Your task to perform on an android device: Search for "macbook pro" on amazon, select the first entry, add it to the cart, then select checkout. Image 0: 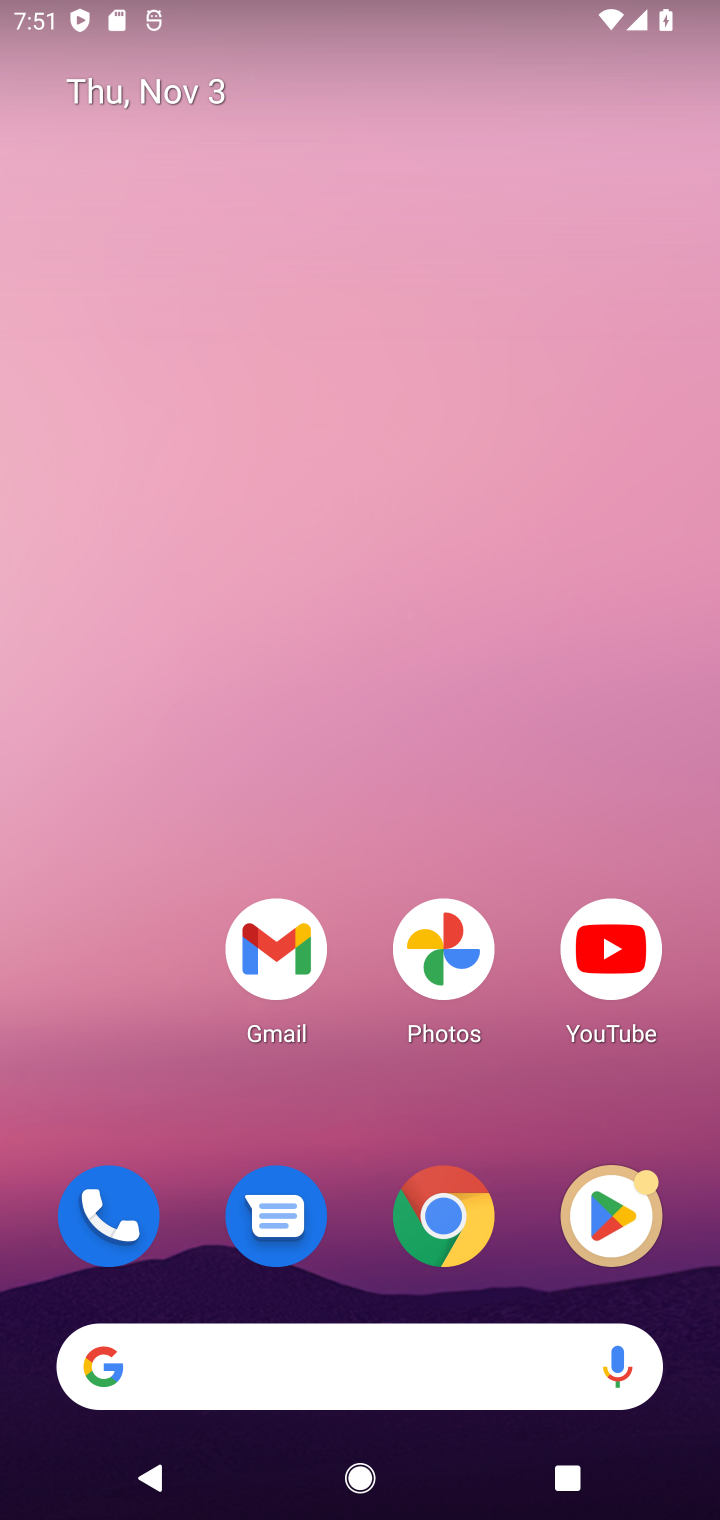
Step 0: click (450, 1232)
Your task to perform on an android device: Search for "macbook pro" on amazon, select the first entry, add it to the cart, then select checkout. Image 1: 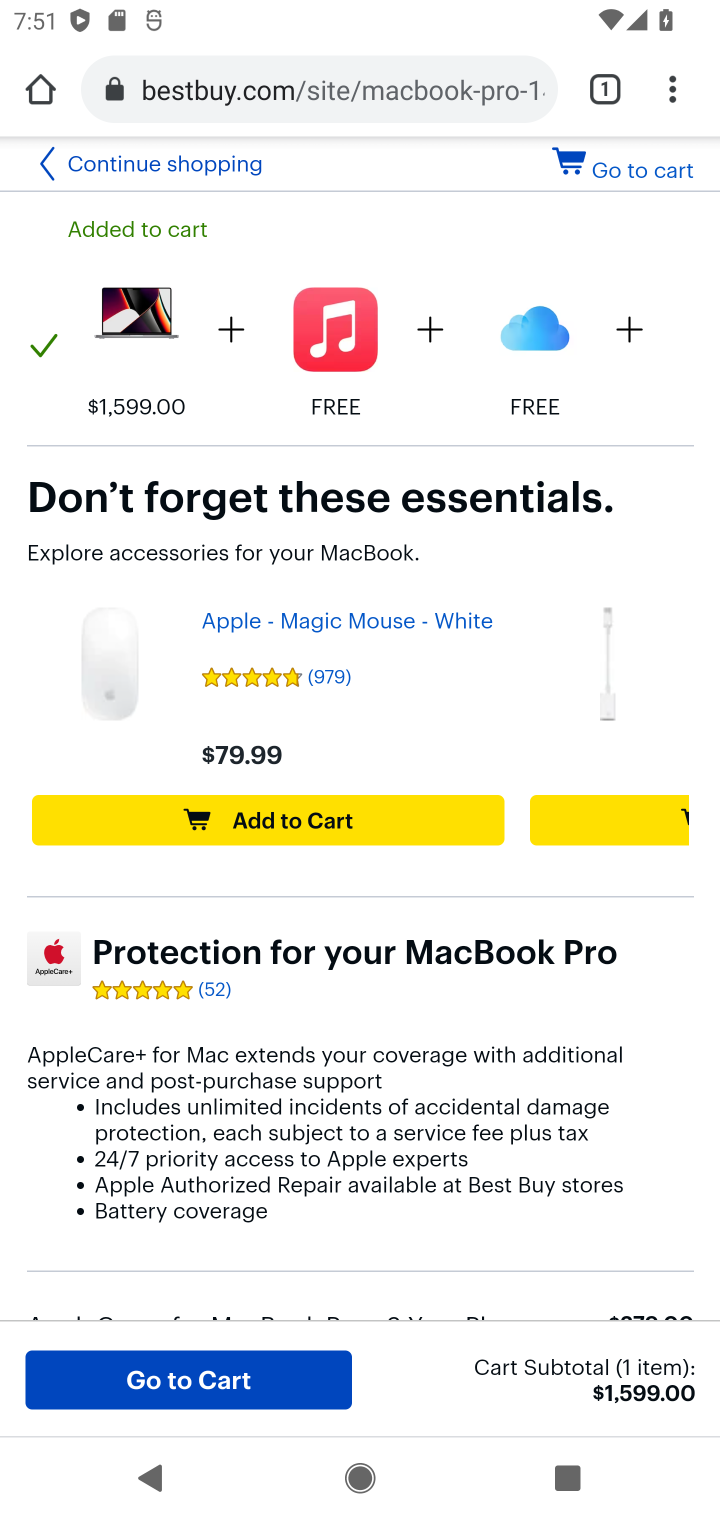
Step 1: click (564, 91)
Your task to perform on an android device: Search for "macbook pro" on amazon, select the first entry, add it to the cart, then select checkout. Image 2: 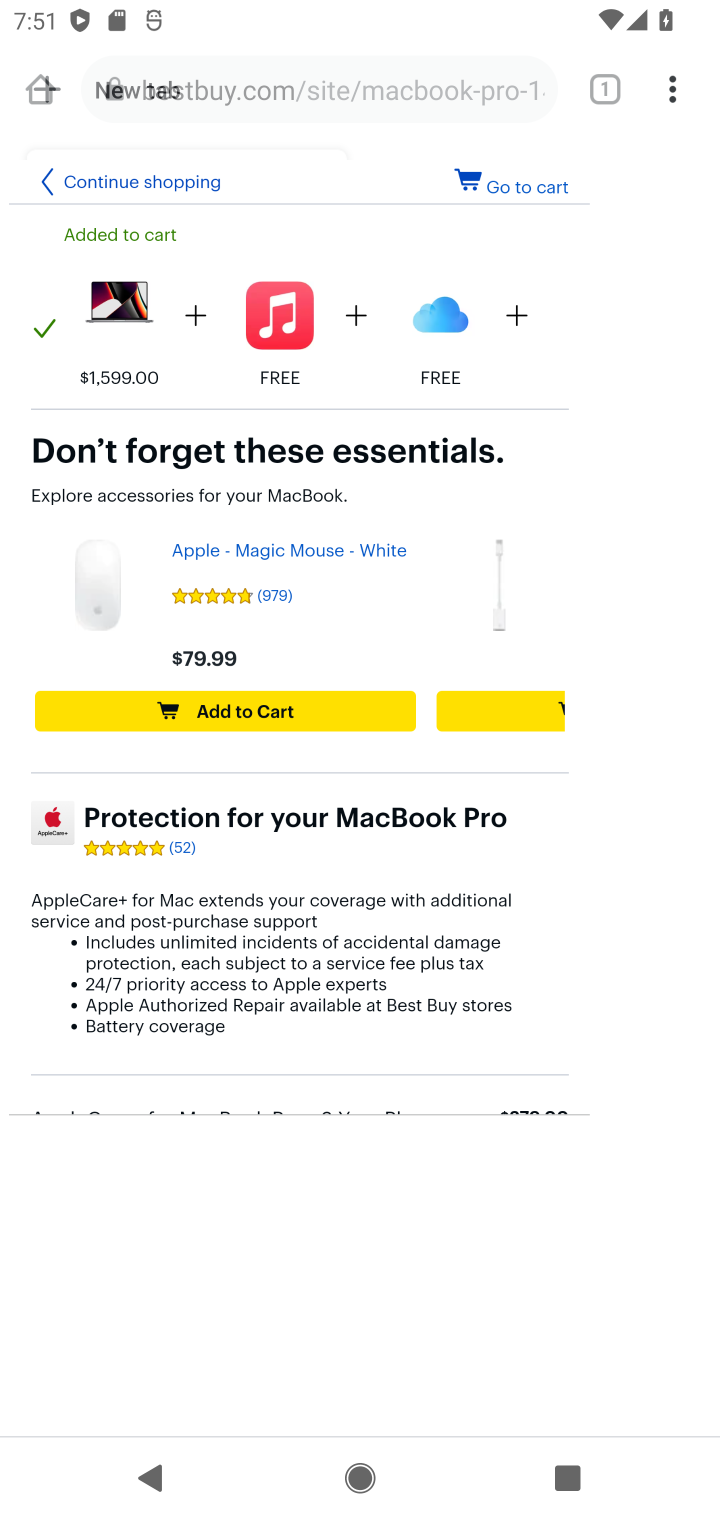
Step 2: click (601, 85)
Your task to perform on an android device: Search for "macbook pro" on amazon, select the first entry, add it to the cart, then select checkout. Image 3: 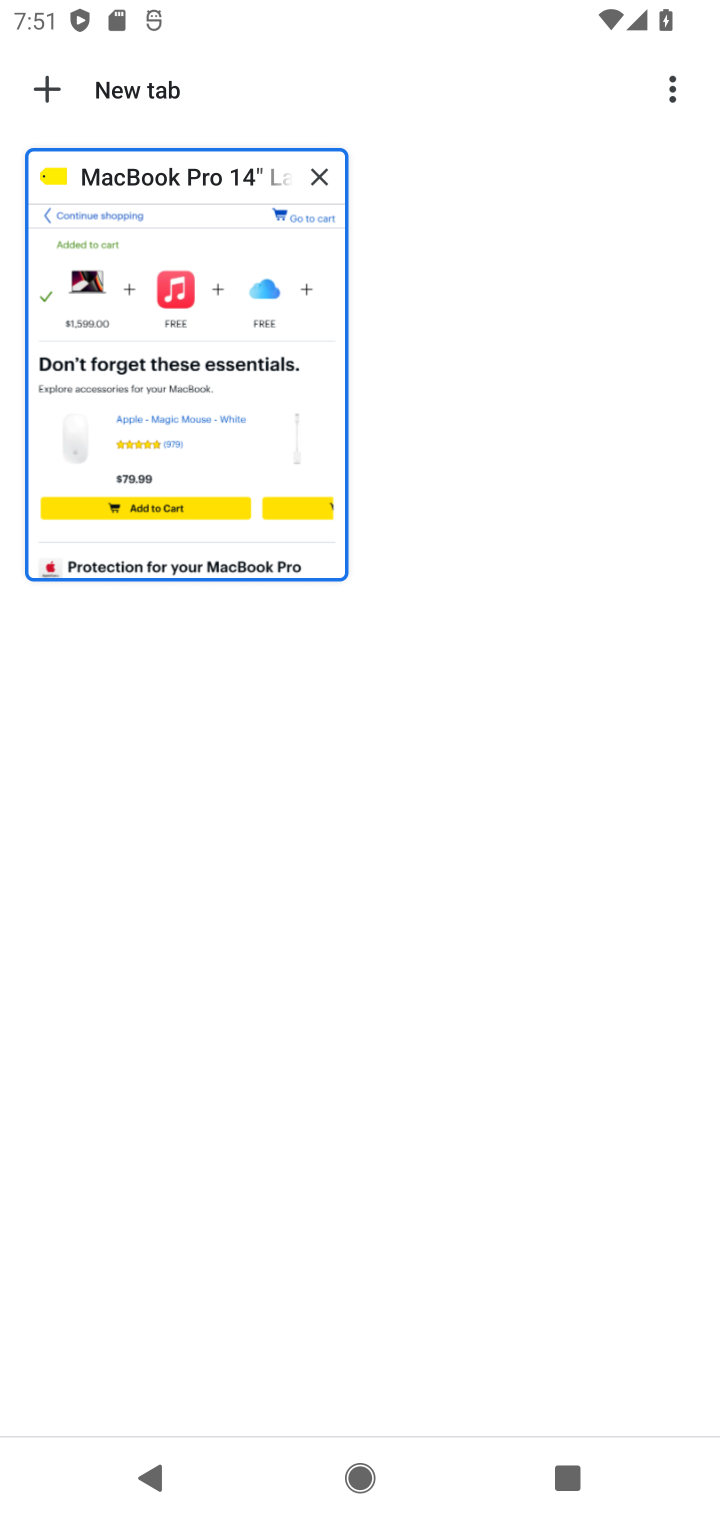
Step 3: click (36, 85)
Your task to perform on an android device: Search for "macbook pro" on amazon, select the first entry, add it to the cart, then select checkout. Image 4: 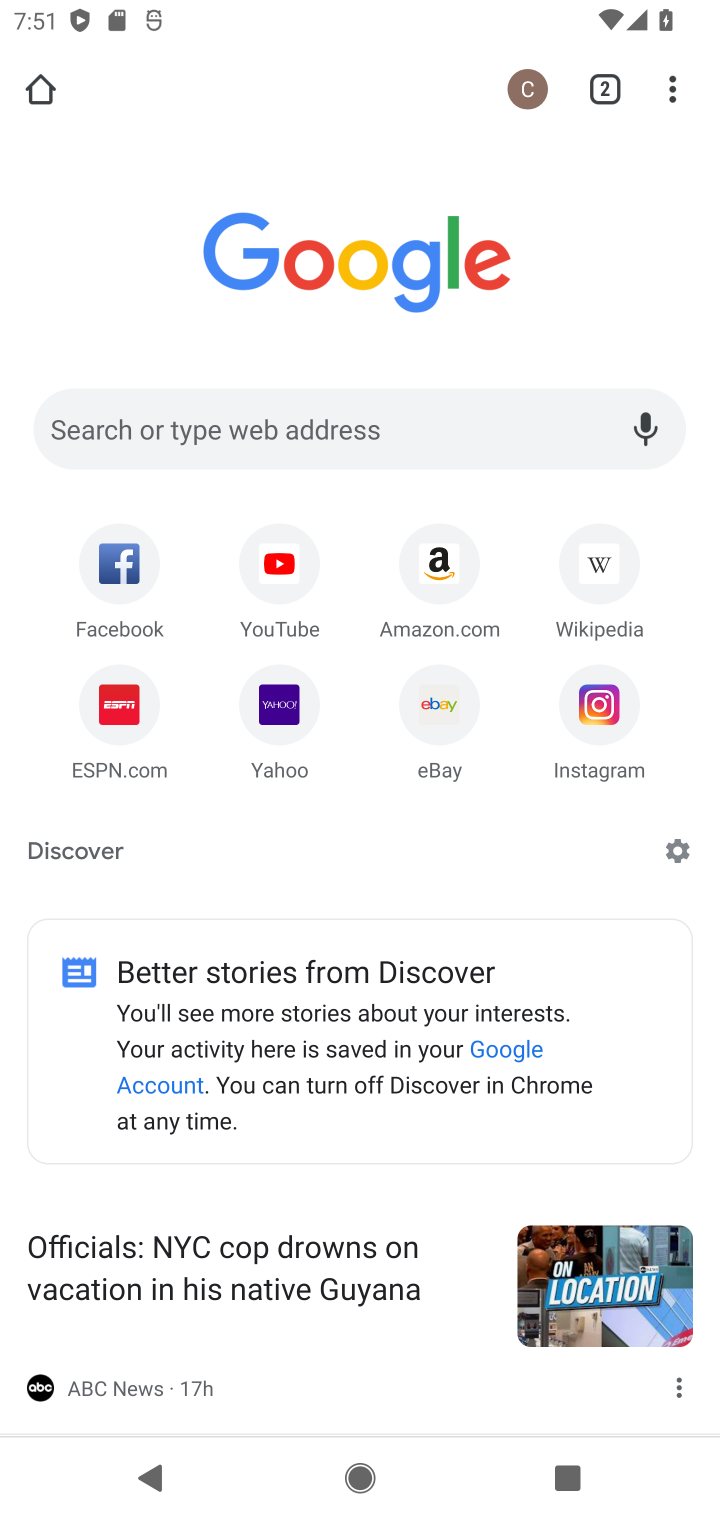
Step 4: click (444, 578)
Your task to perform on an android device: Search for "macbook pro" on amazon, select the first entry, add it to the cart, then select checkout. Image 5: 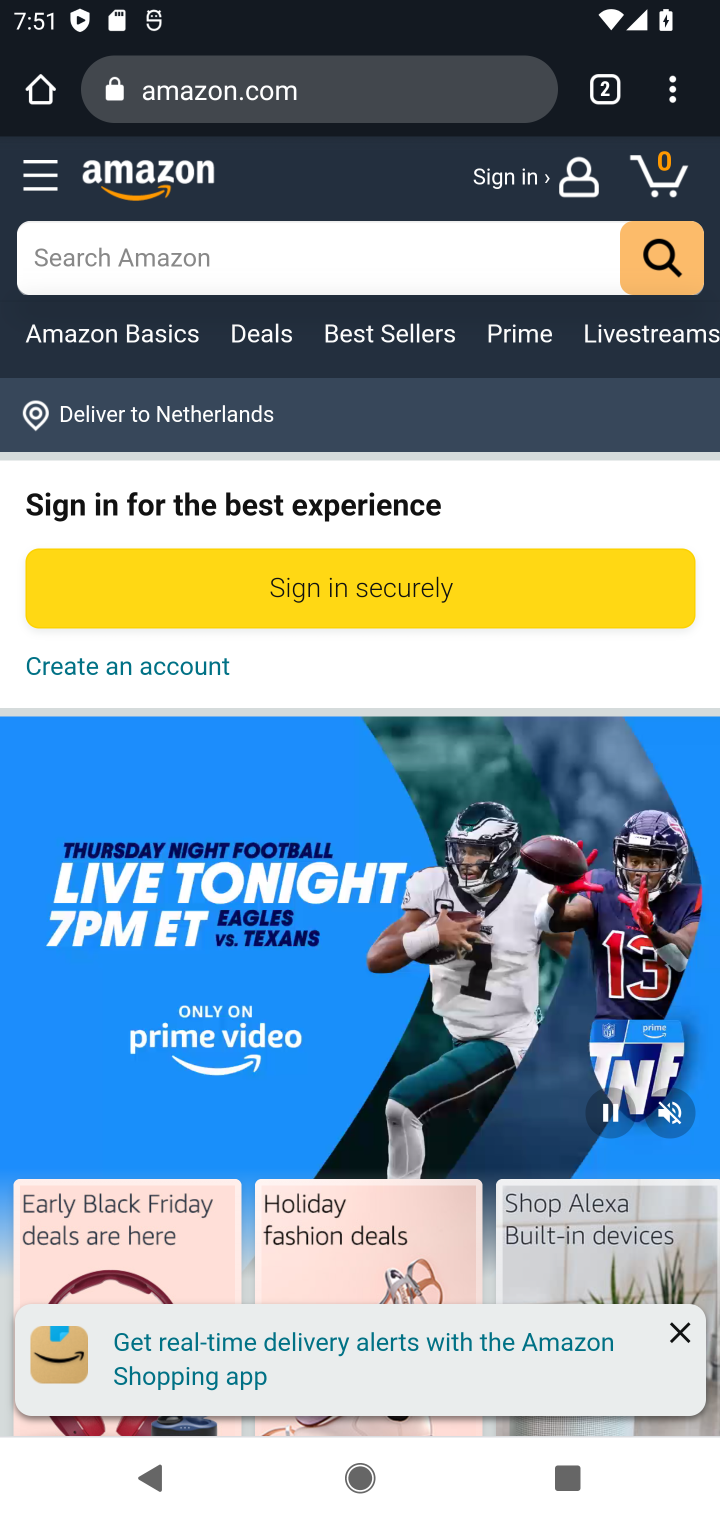
Step 5: type "macbook pro"
Your task to perform on an android device: Search for "macbook pro" on amazon, select the first entry, add it to the cart, then select checkout. Image 6: 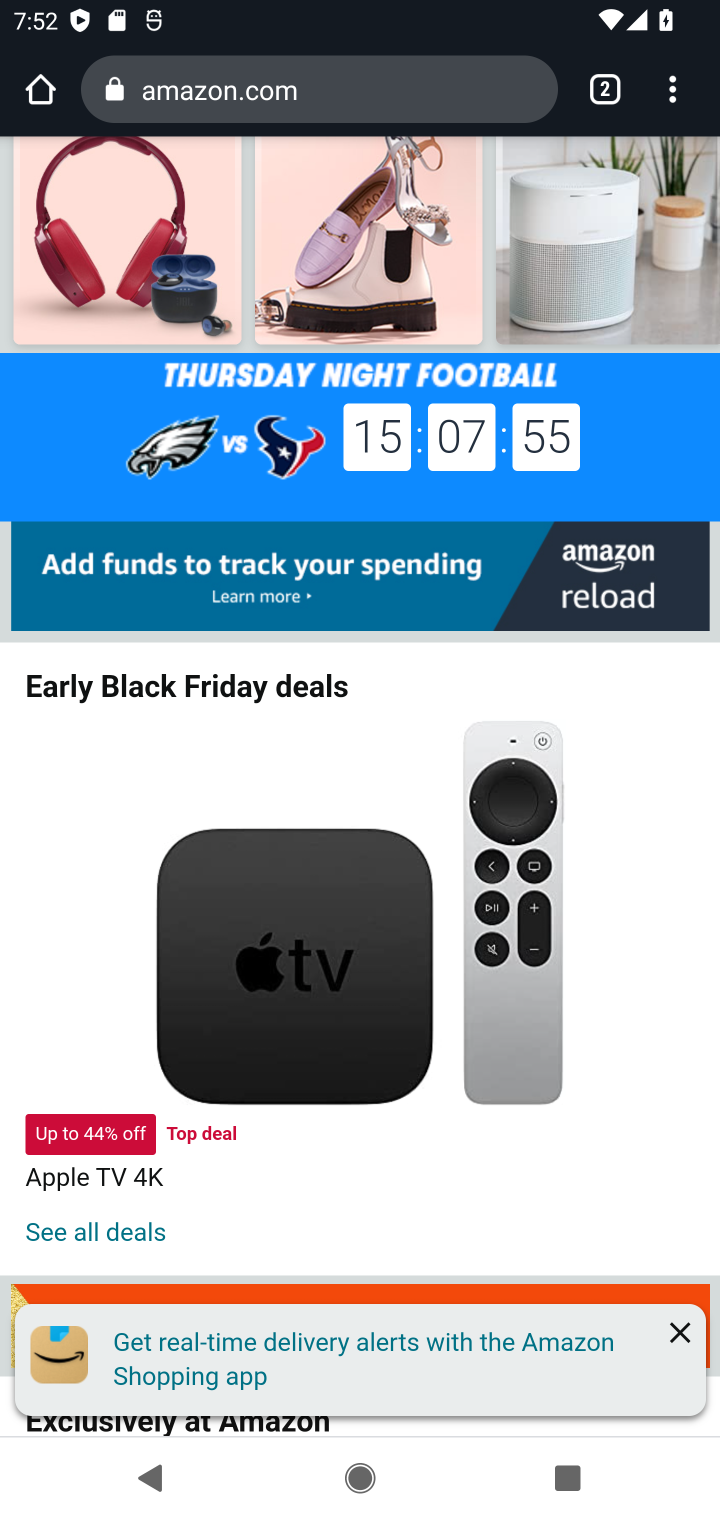
Step 6: drag from (356, 571) to (457, 1267)
Your task to perform on an android device: Search for "macbook pro" on amazon, select the first entry, add it to the cart, then select checkout. Image 7: 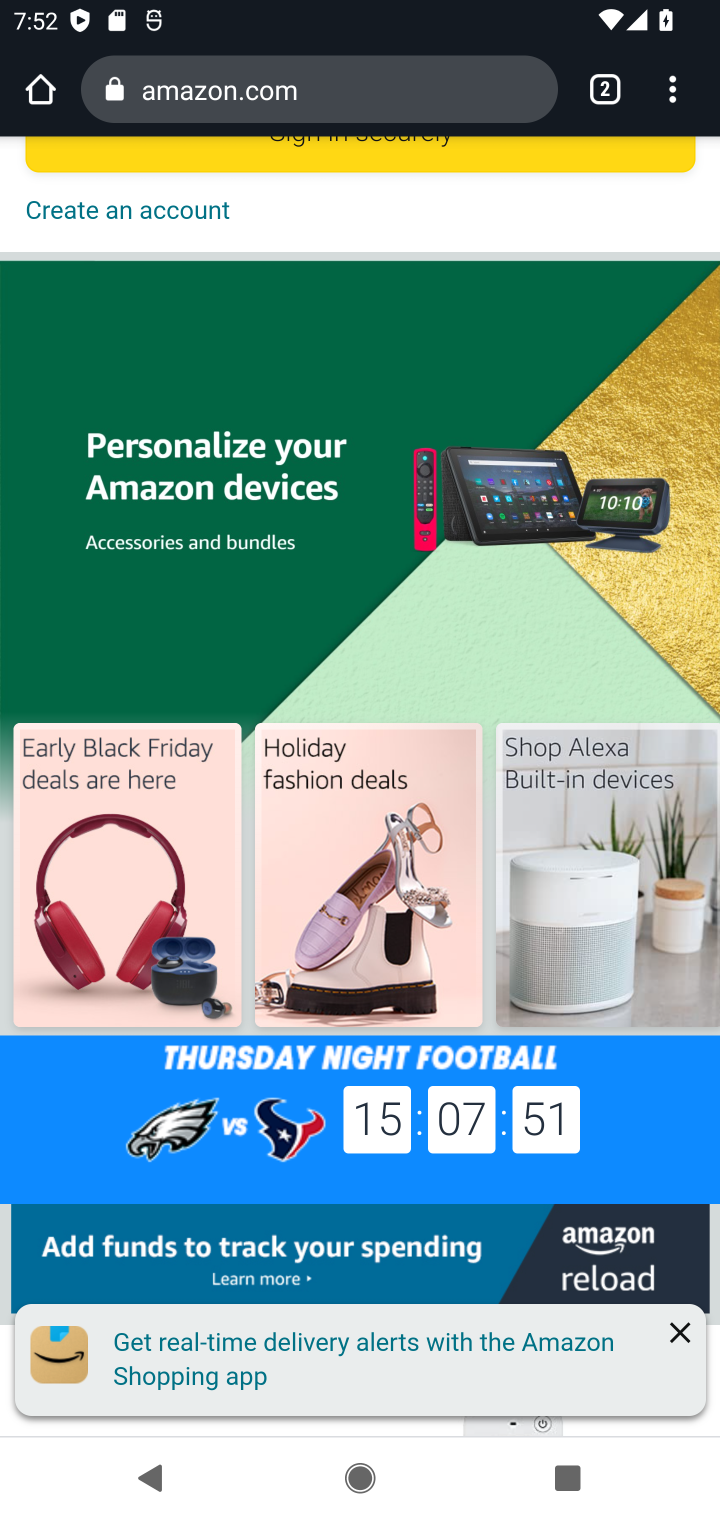
Step 7: drag from (271, 615) to (307, 1054)
Your task to perform on an android device: Search for "macbook pro" on amazon, select the first entry, add it to the cart, then select checkout. Image 8: 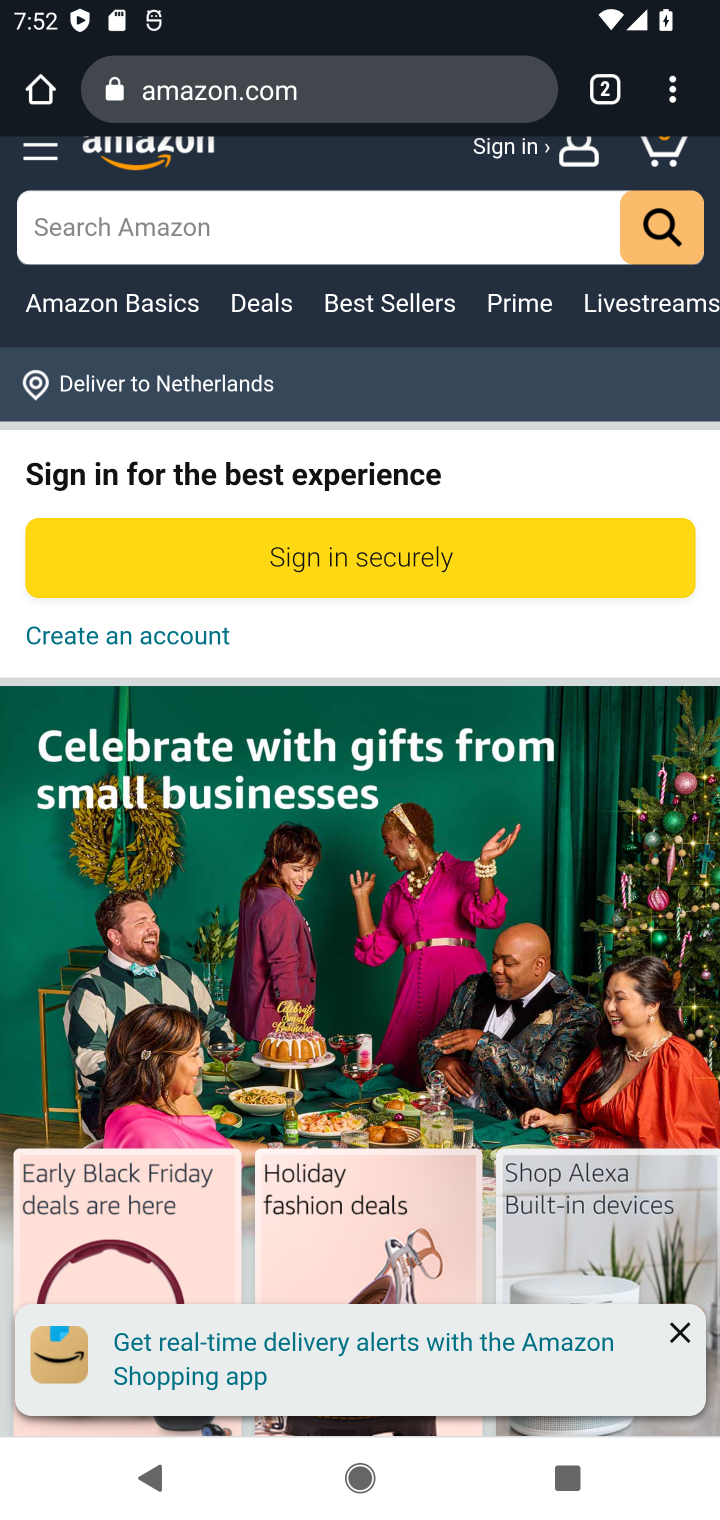
Step 8: click (327, 219)
Your task to perform on an android device: Search for "macbook pro" on amazon, select the first entry, add it to the cart, then select checkout. Image 9: 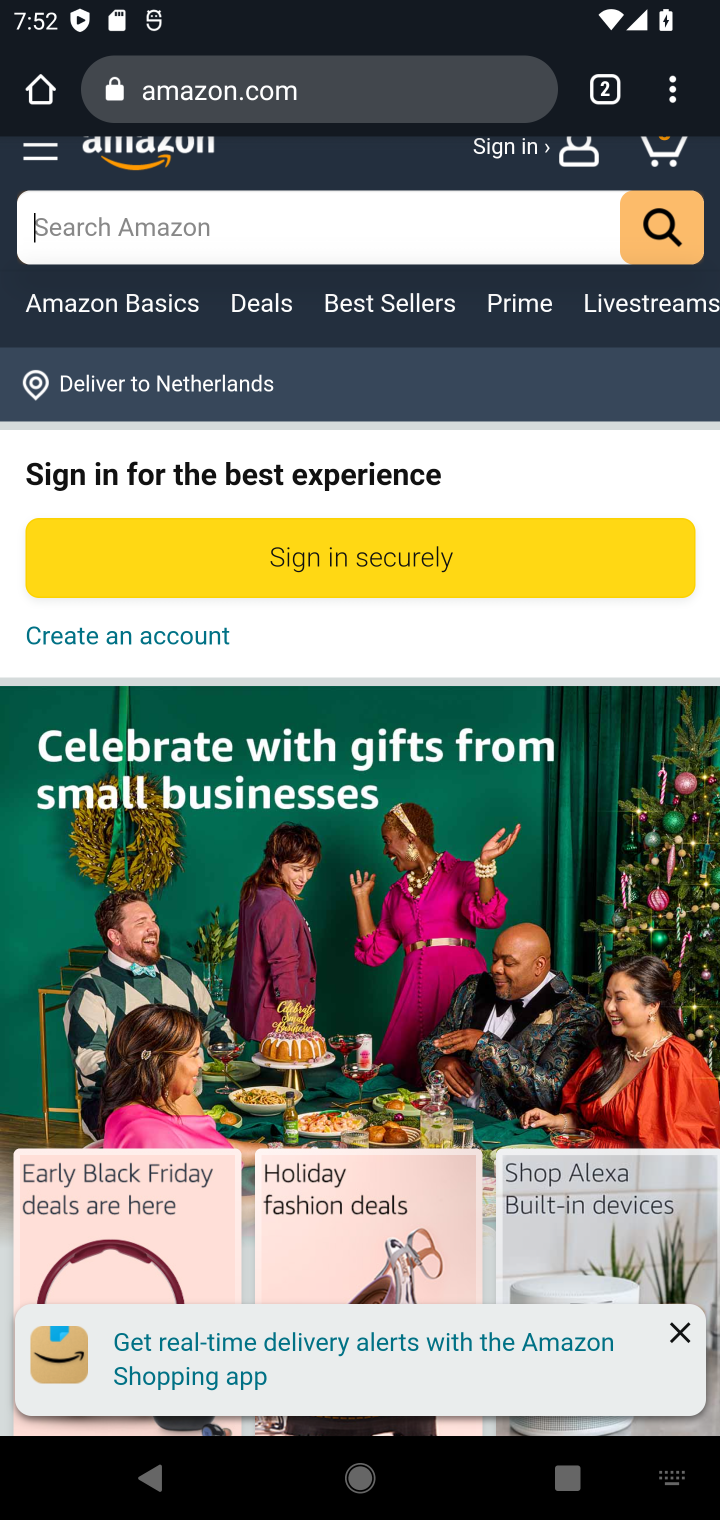
Step 9: type "macbook pro"
Your task to perform on an android device: Search for "macbook pro" on amazon, select the first entry, add it to the cart, then select checkout. Image 10: 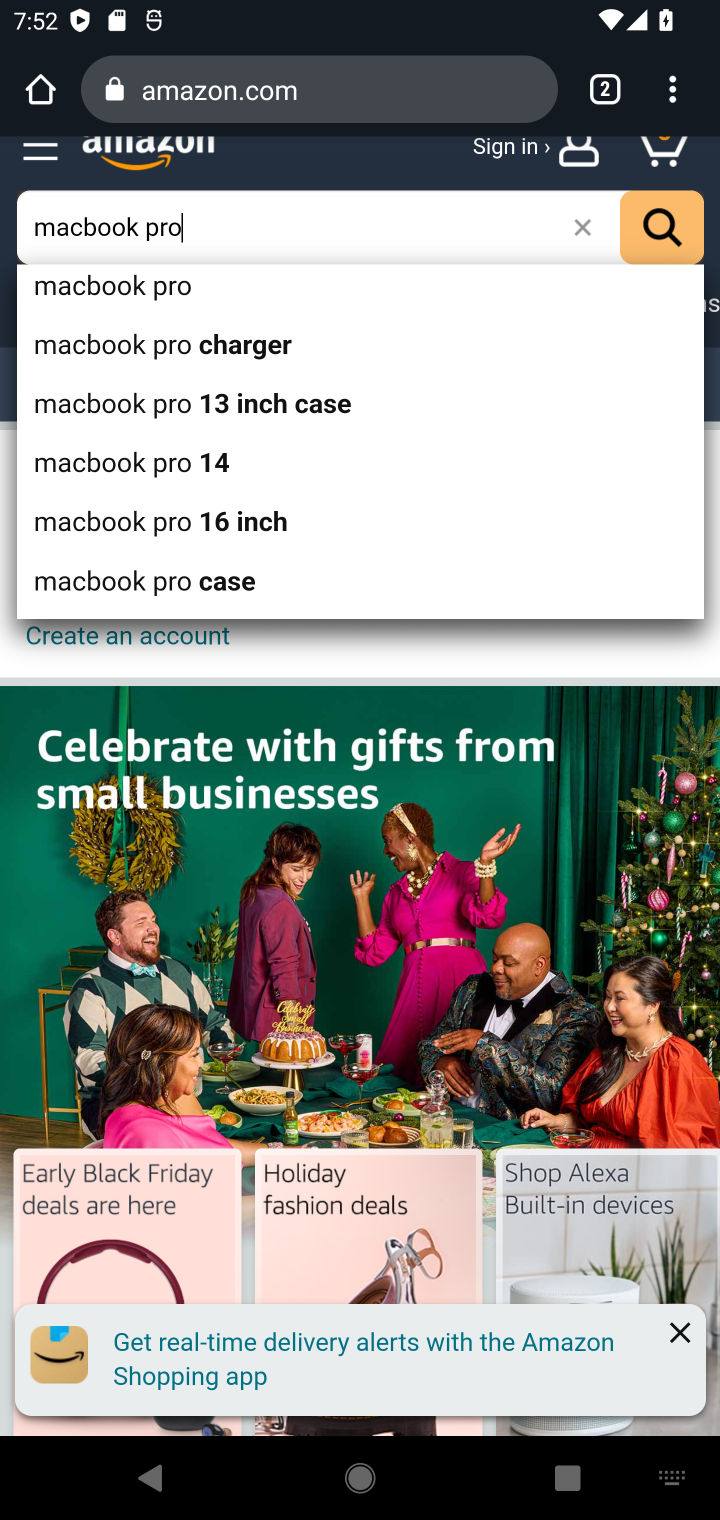
Step 10: press enter
Your task to perform on an android device: Search for "macbook pro" on amazon, select the first entry, add it to the cart, then select checkout. Image 11: 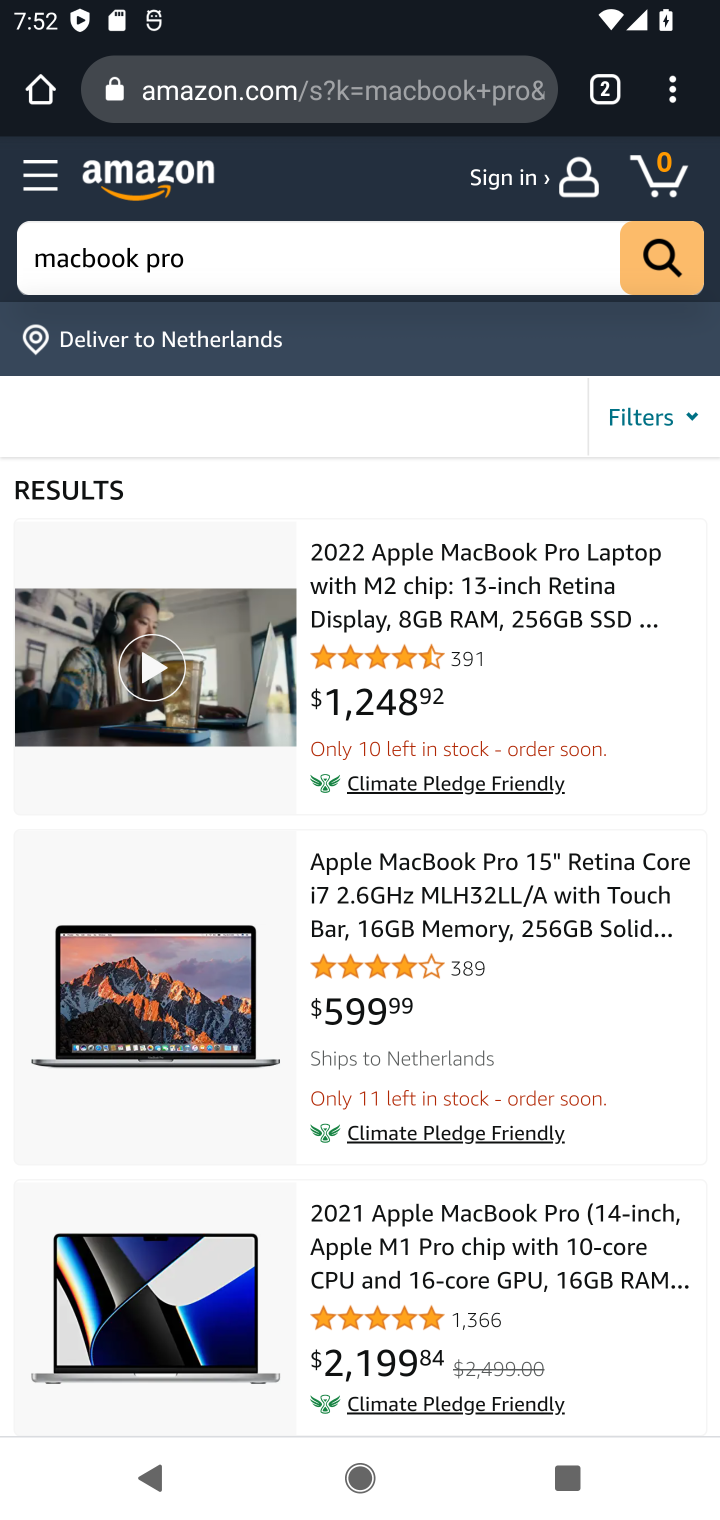
Step 11: click (497, 598)
Your task to perform on an android device: Search for "macbook pro" on amazon, select the first entry, add it to the cart, then select checkout. Image 12: 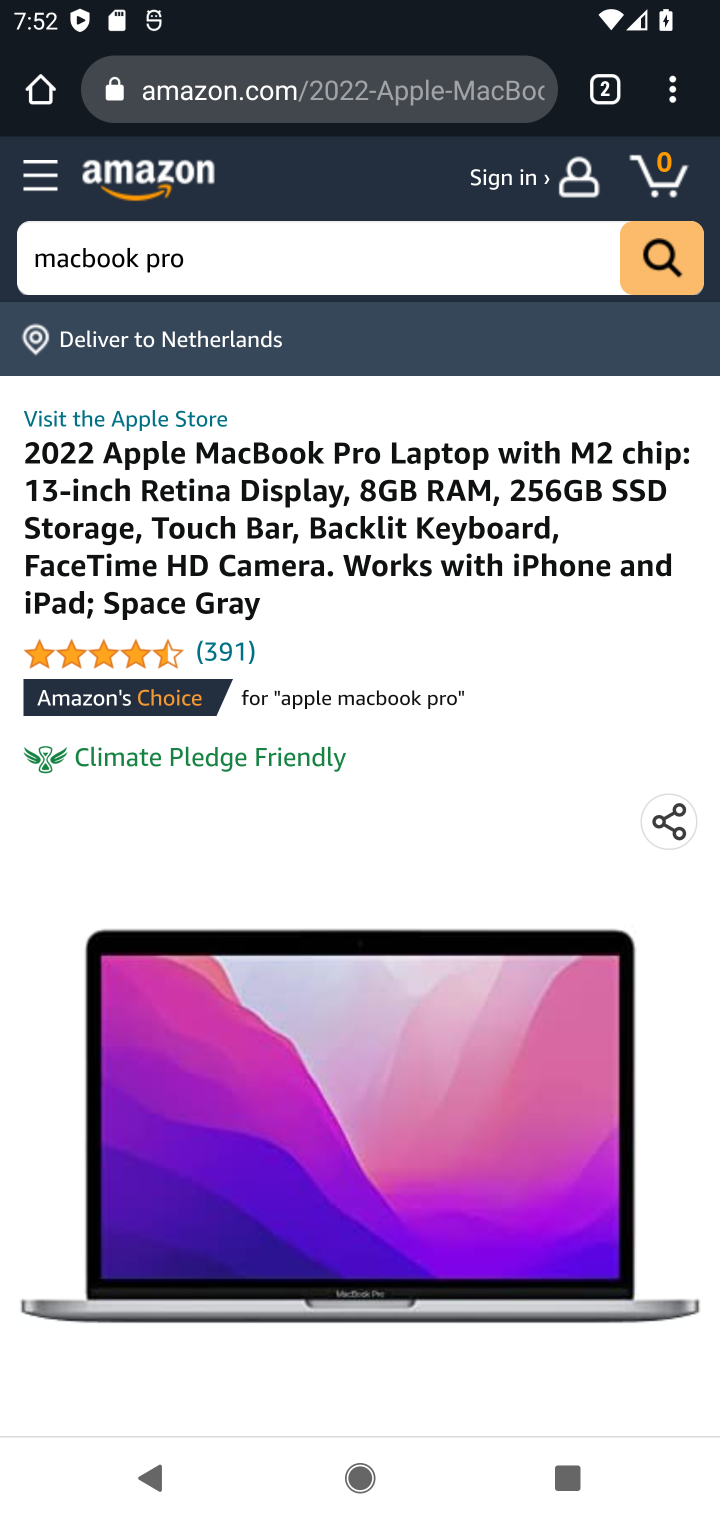
Step 12: drag from (446, 781) to (423, 372)
Your task to perform on an android device: Search for "macbook pro" on amazon, select the first entry, add it to the cart, then select checkout. Image 13: 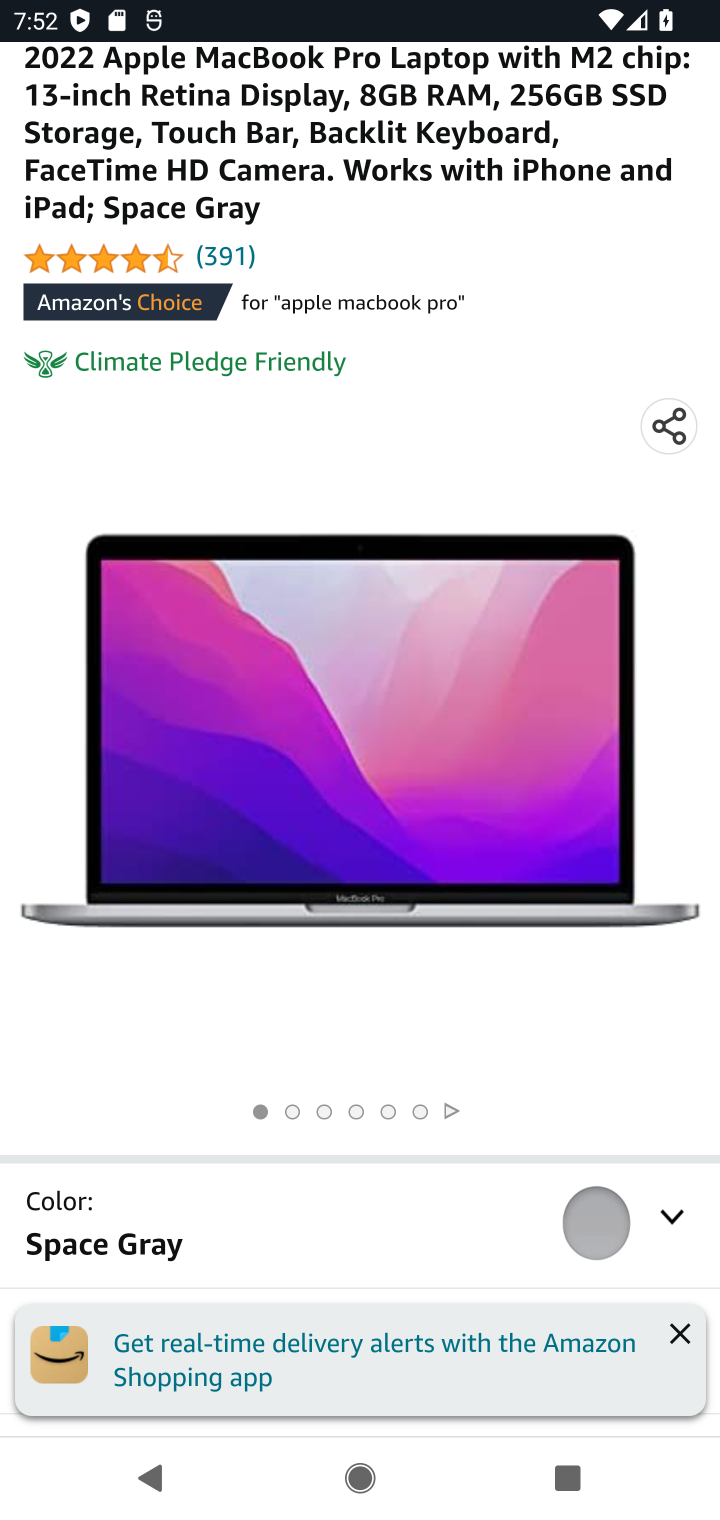
Step 13: drag from (335, 1294) to (320, 343)
Your task to perform on an android device: Search for "macbook pro" on amazon, select the first entry, add it to the cart, then select checkout. Image 14: 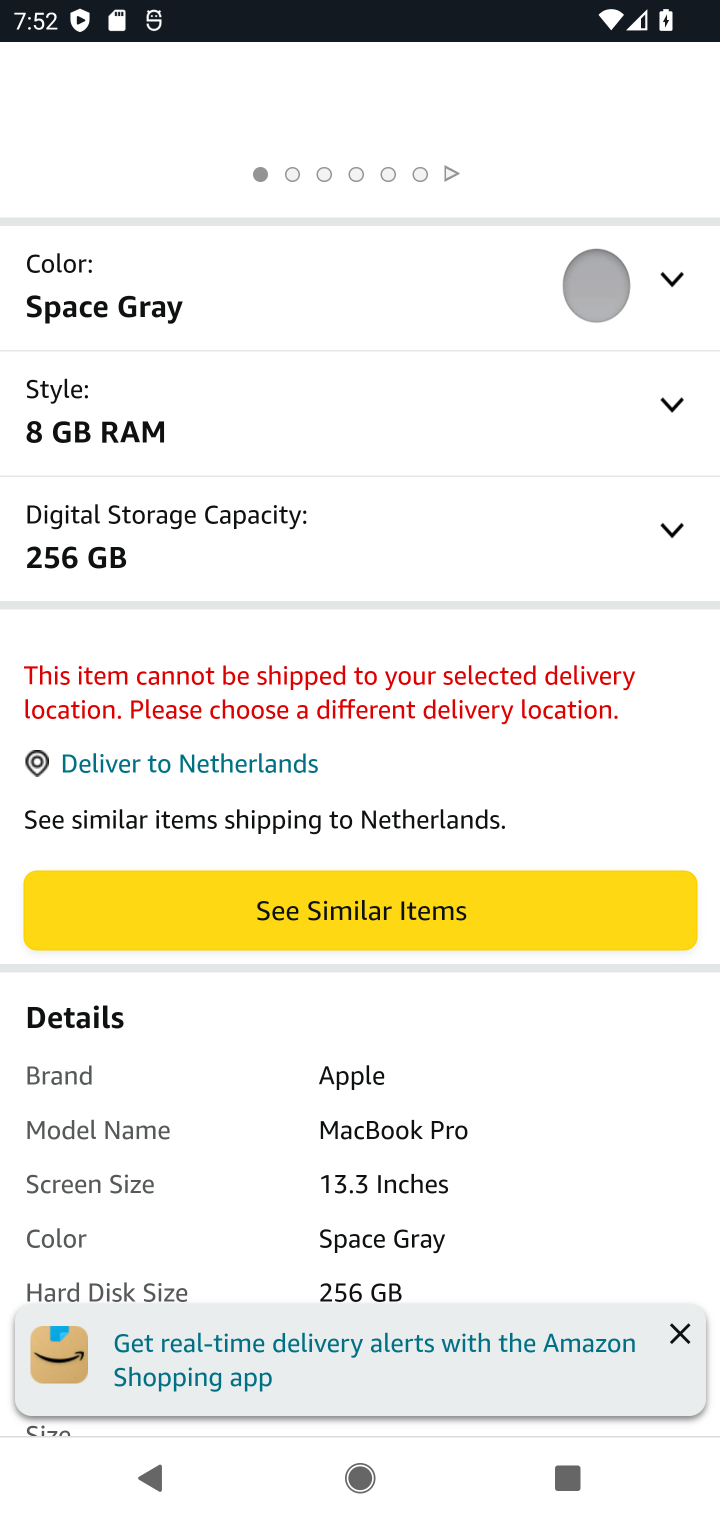
Step 14: drag from (319, 1108) to (293, 407)
Your task to perform on an android device: Search for "macbook pro" on amazon, select the first entry, add it to the cart, then select checkout. Image 15: 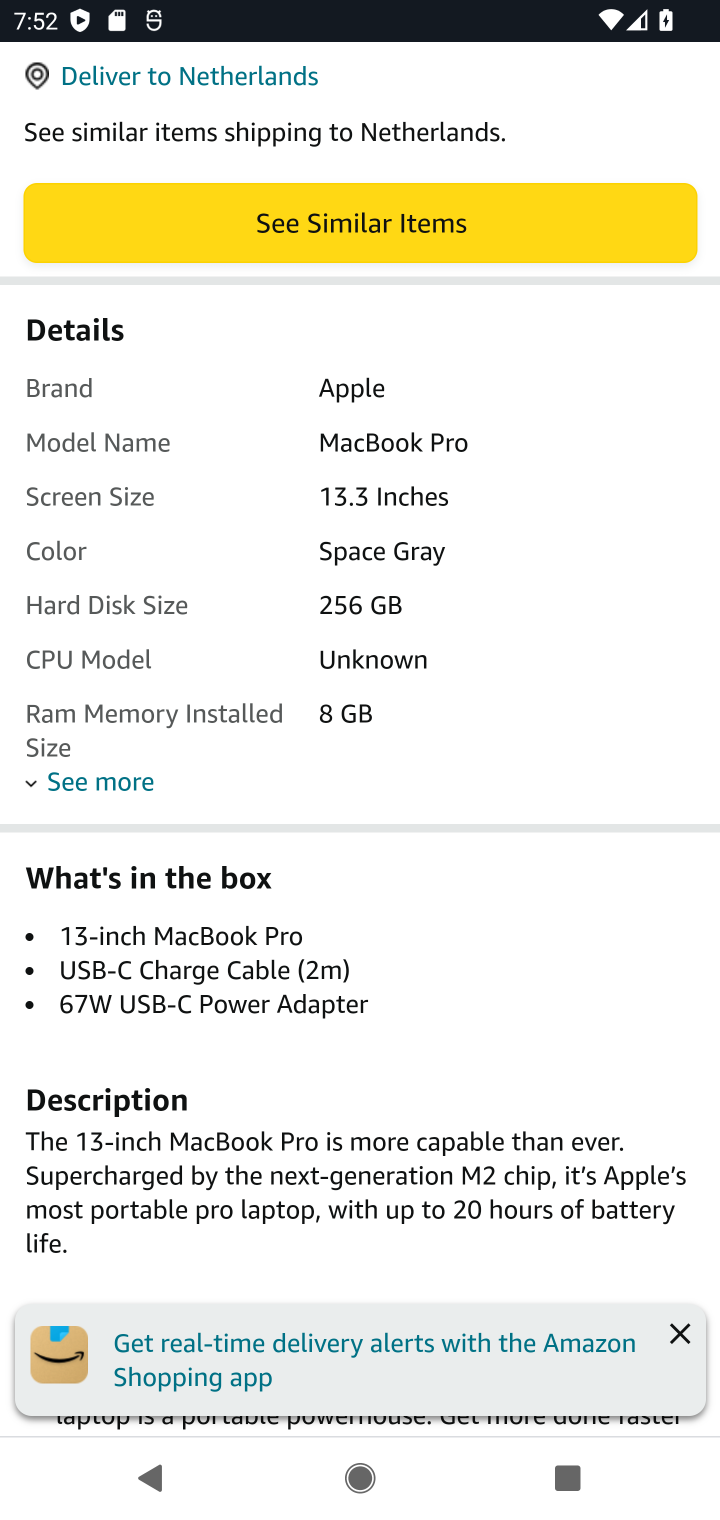
Step 15: drag from (492, 1247) to (328, 336)
Your task to perform on an android device: Search for "macbook pro" on amazon, select the first entry, add it to the cart, then select checkout. Image 16: 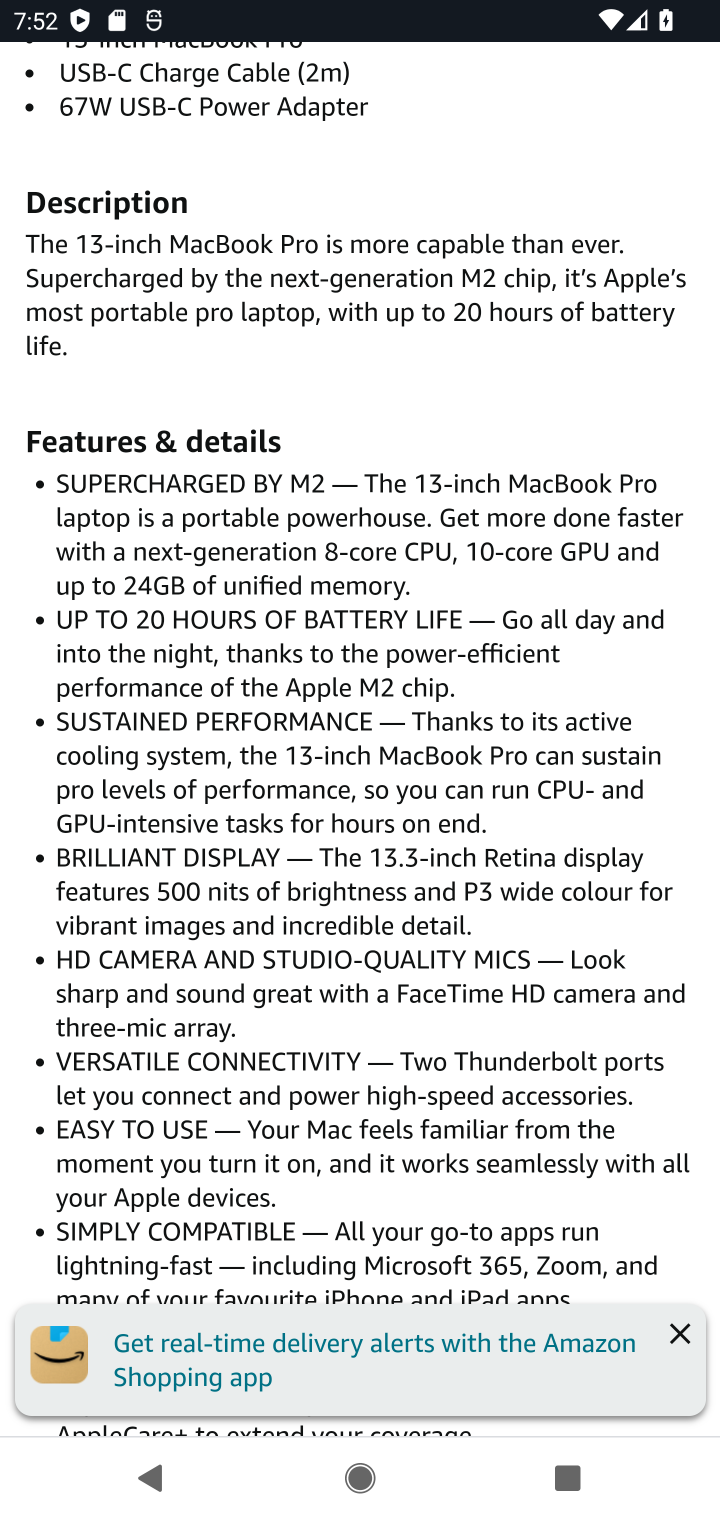
Step 16: drag from (296, 1022) to (256, 75)
Your task to perform on an android device: Search for "macbook pro" on amazon, select the first entry, add it to the cart, then select checkout. Image 17: 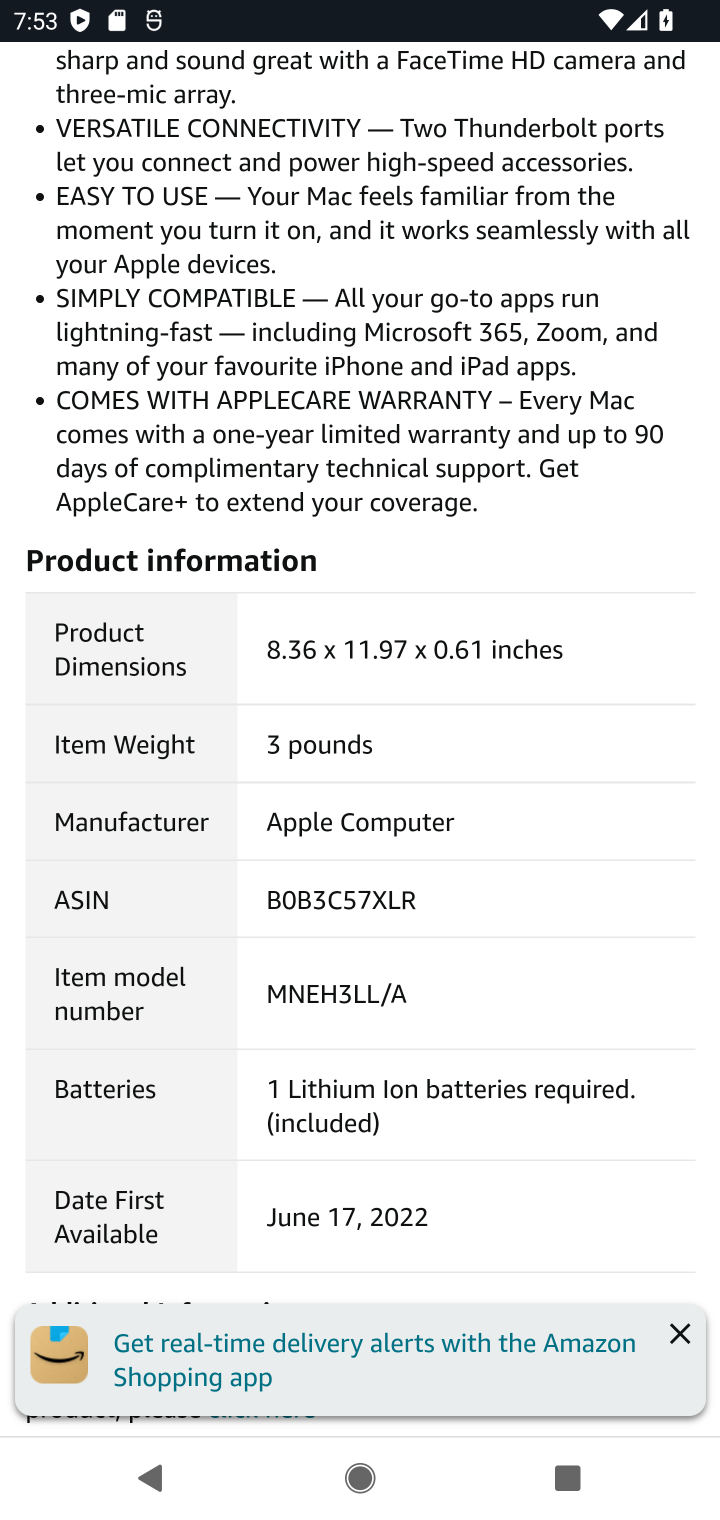
Step 17: drag from (262, 1190) to (232, 183)
Your task to perform on an android device: Search for "macbook pro" on amazon, select the first entry, add it to the cart, then select checkout. Image 18: 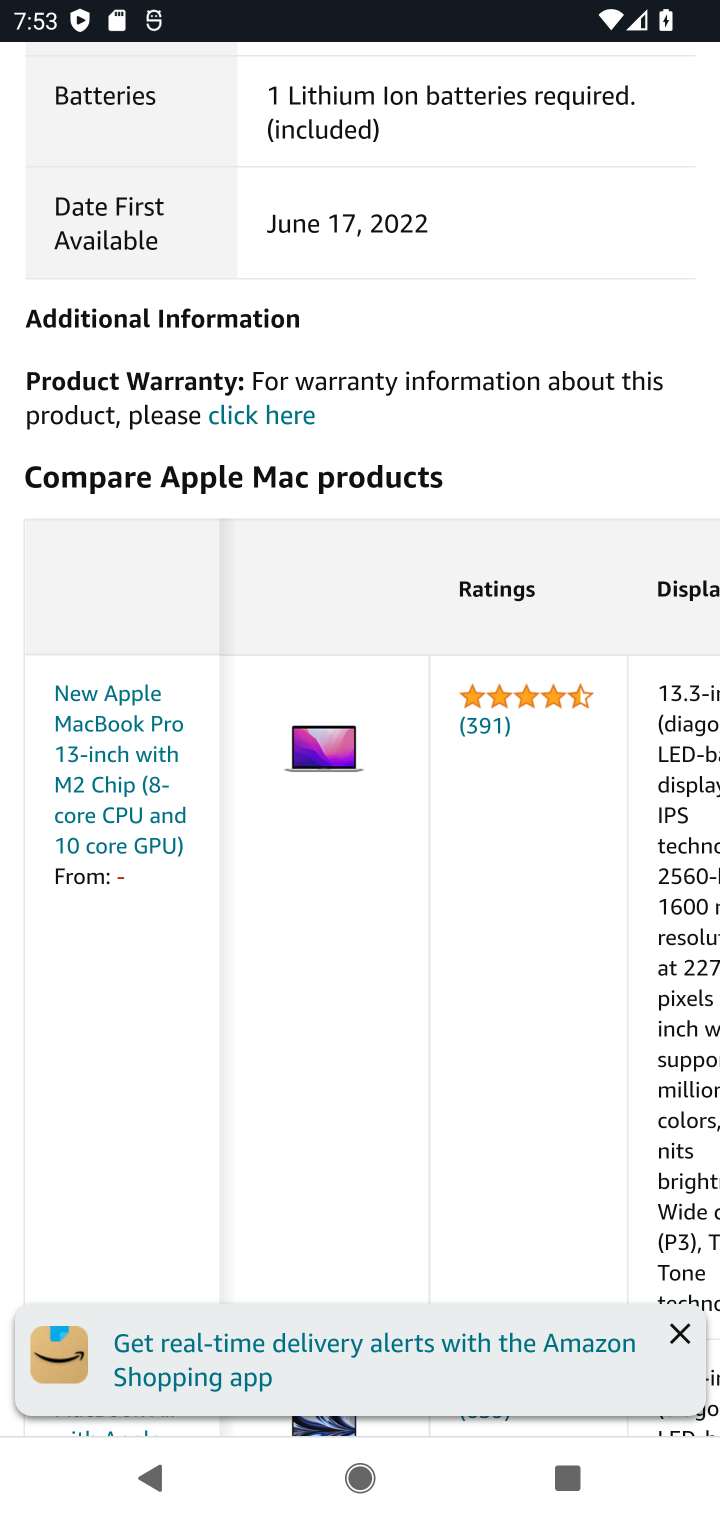
Step 18: drag from (311, 1151) to (151, 74)
Your task to perform on an android device: Search for "macbook pro" on amazon, select the first entry, add it to the cart, then select checkout. Image 19: 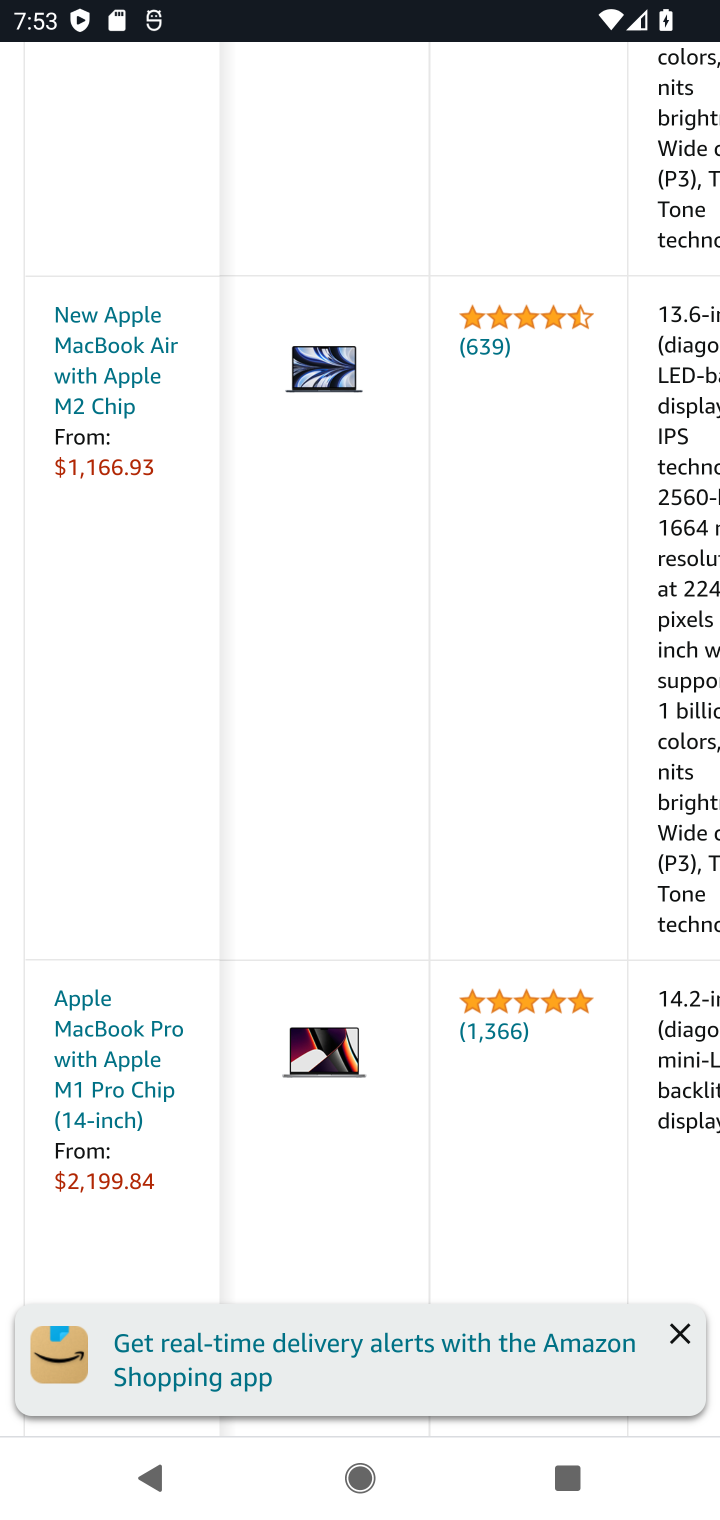
Step 19: drag from (427, 1160) to (267, 325)
Your task to perform on an android device: Search for "macbook pro" on amazon, select the first entry, add it to the cart, then select checkout. Image 20: 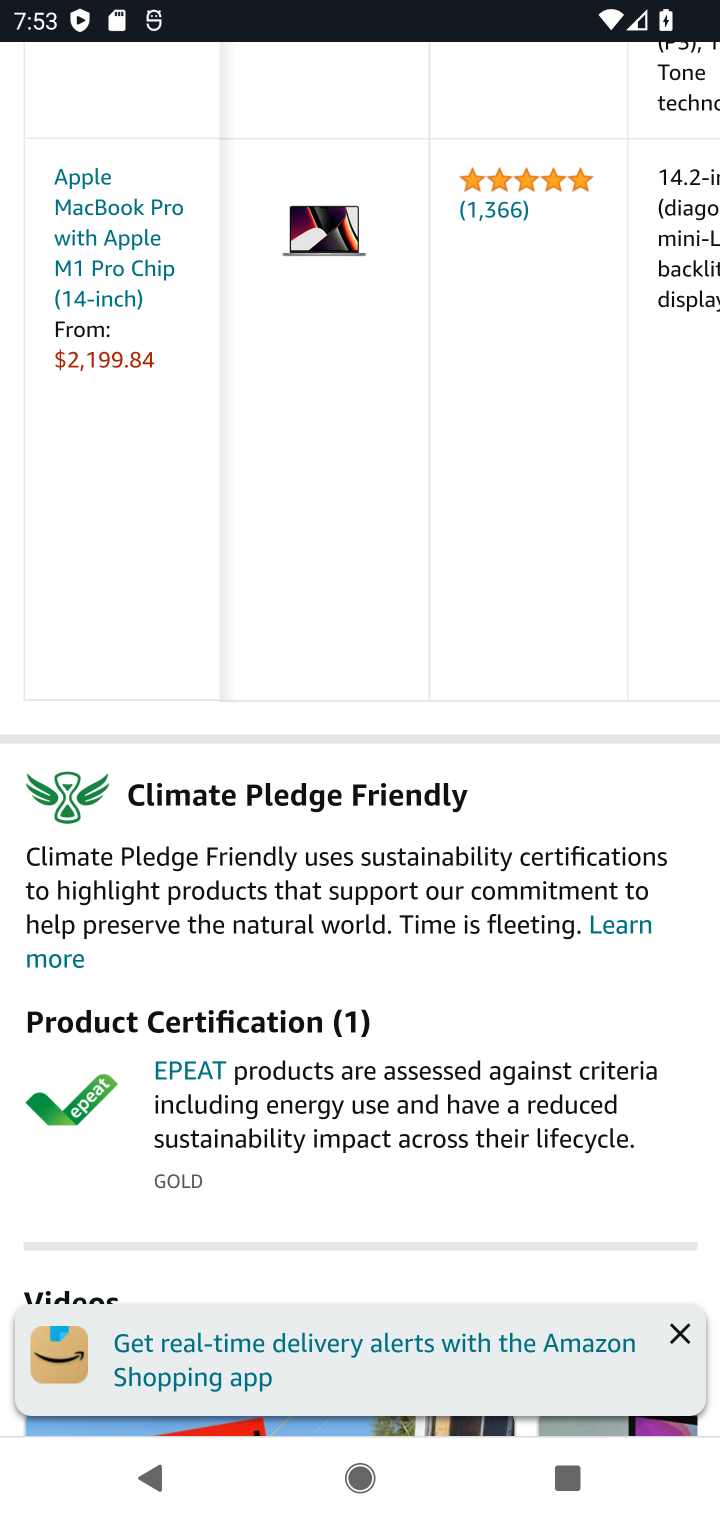
Step 20: drag from (344, 1125) to (253, 392)
Your task to perform on an android device: Search for "macbook pro" on amazon, select the first entry, add it to the cart, then select checkout. Image 21: 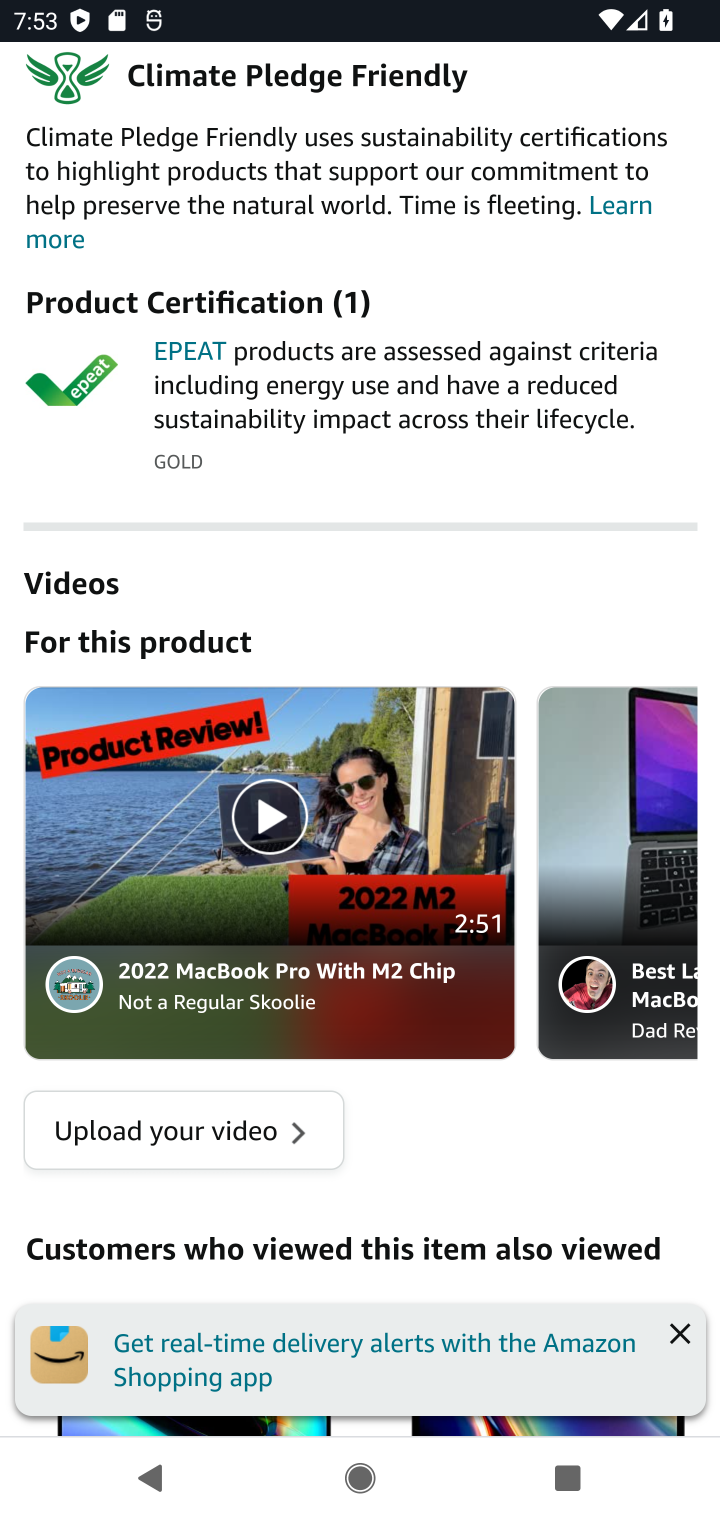
Step 21: drag from (495, 1246) to (323, 168)
Your task to perform on an android device: Search for "macbook pro" on amazon, select the first entry, add it to the cart, then select checkout. Image 22: 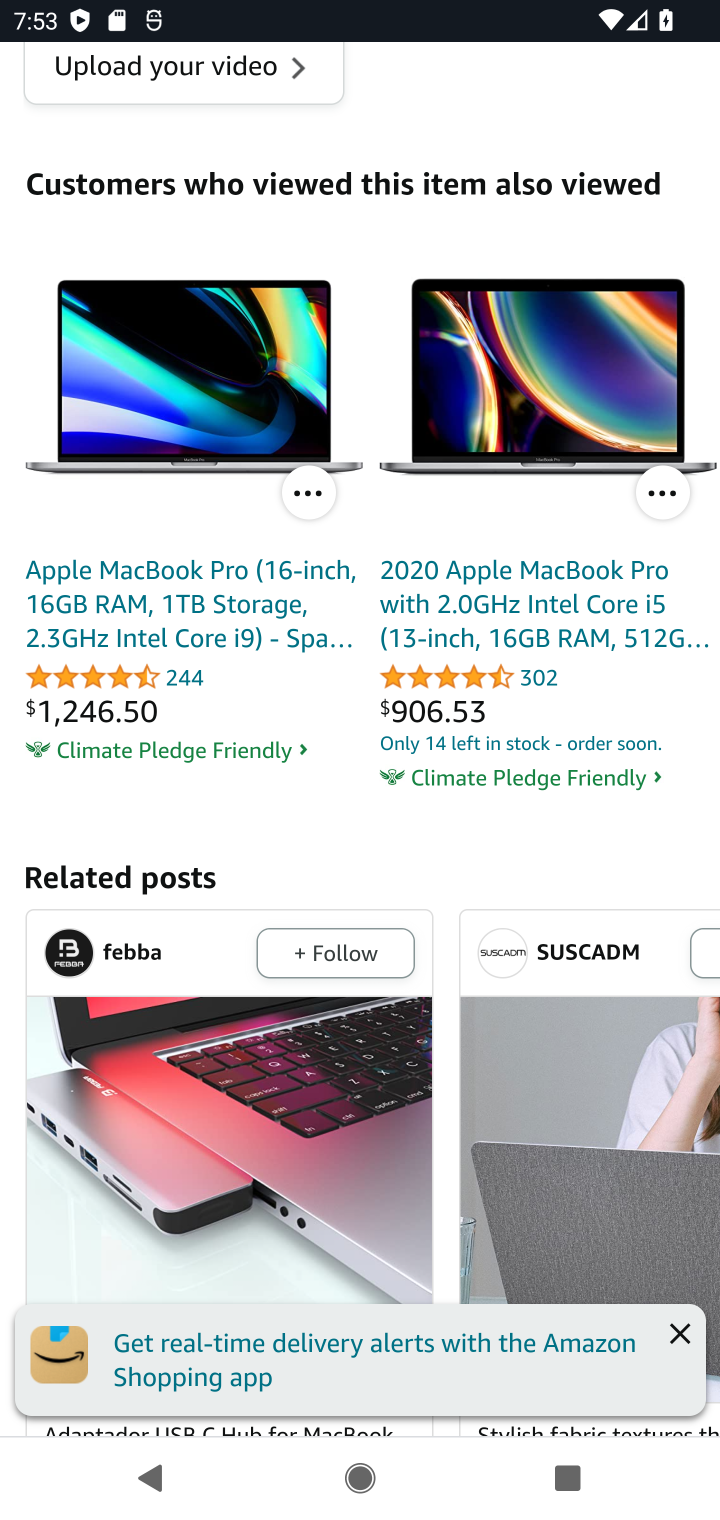
Step 22: drag from (463, 838) to (363, 7)
Your task to perform on an android device: Search for "macbook pro" on amazon, select the first entry, add it to the cart, then select checkout. Image 23: 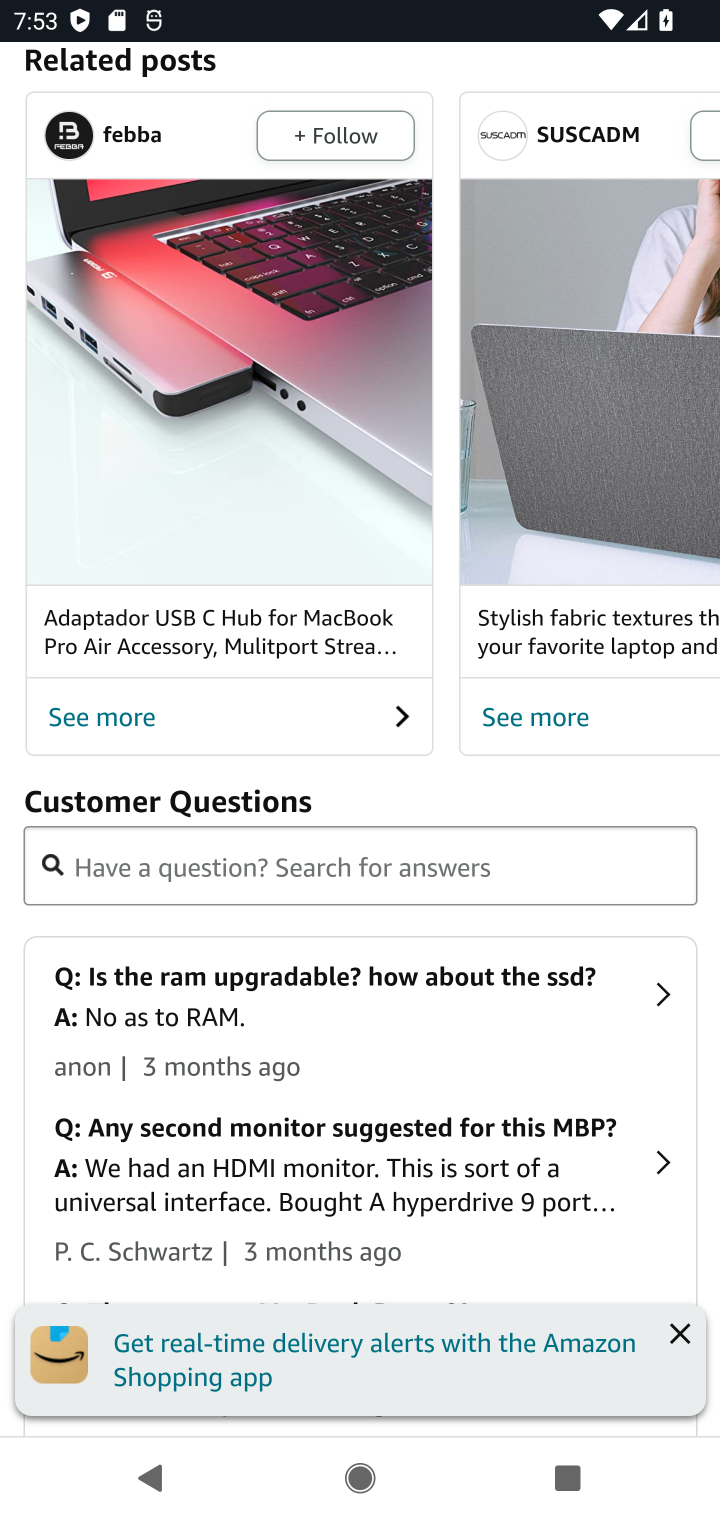
Step 23: drag from (515, 1195) to (409, 271)
Your task to perform on an android device: Search for "macbook pro" on amazon, select the first entry, add it to the cart, then select checkout. Image 24: 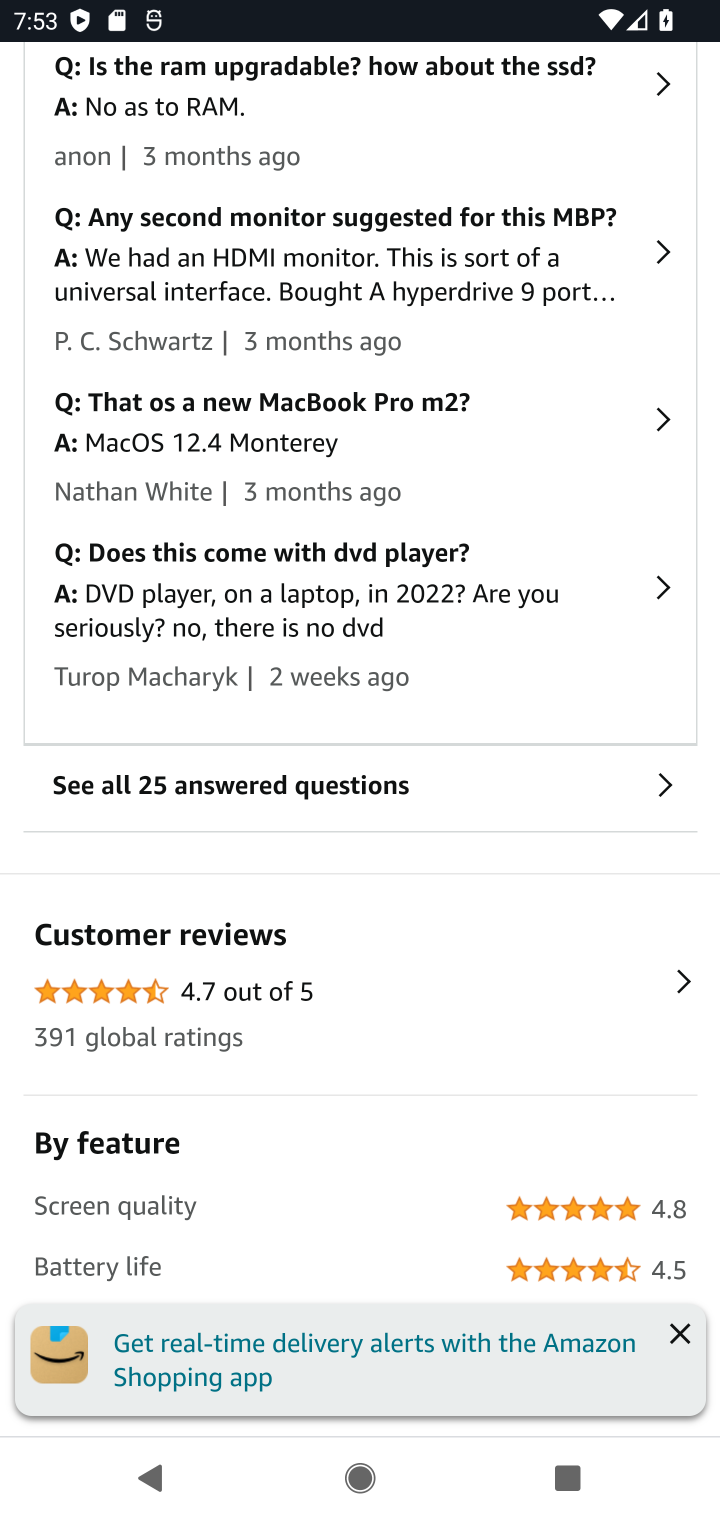
Step 24: drag from (356, 1178) to (300, 184)
Your task to perform on an android device: Search for "macbook pro" on amazon, select the first entry, add it to the cart, then select checkout. Image 25: 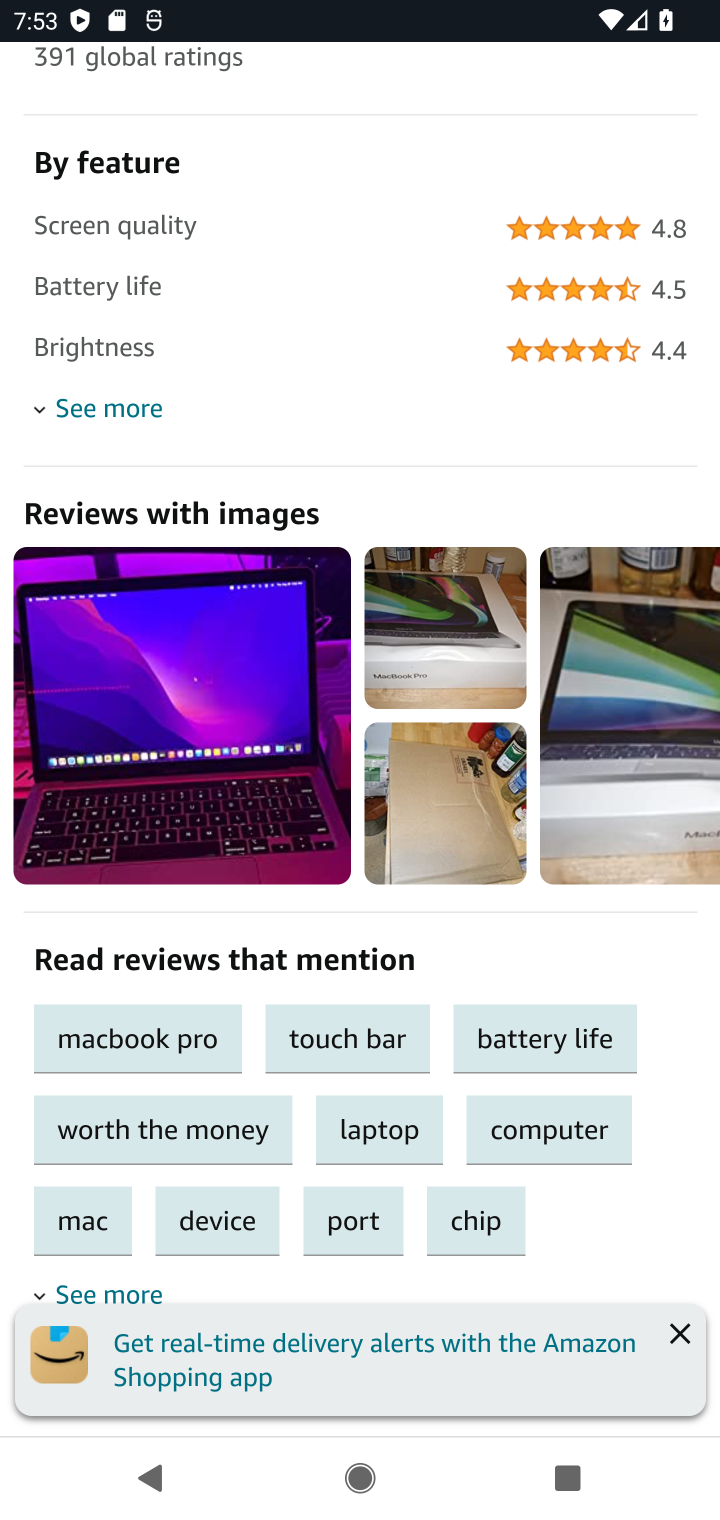
Step 25: drag from (571, 1239) to (401, 81)
Your task to perform on an android device: Search for "macbook pro" on amazon, select the first entry, add it to the cart, then select checkout. Image 26: 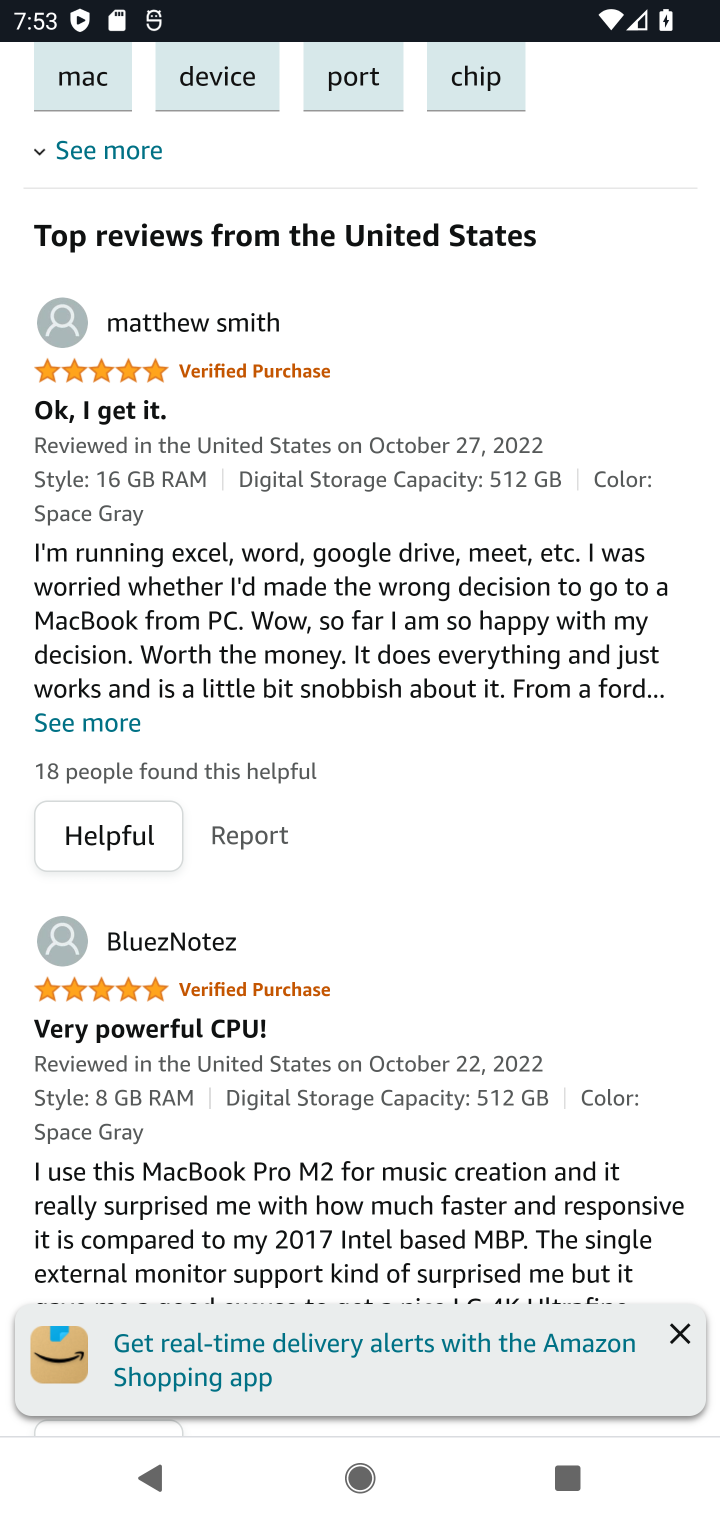
Step 26: drag from (442, 1233) to (344, 99)
Your task to perform on an android device: Search for "macbook pro" on amazon, select the first entry, add it to the cart, then select checkout. Image 27: 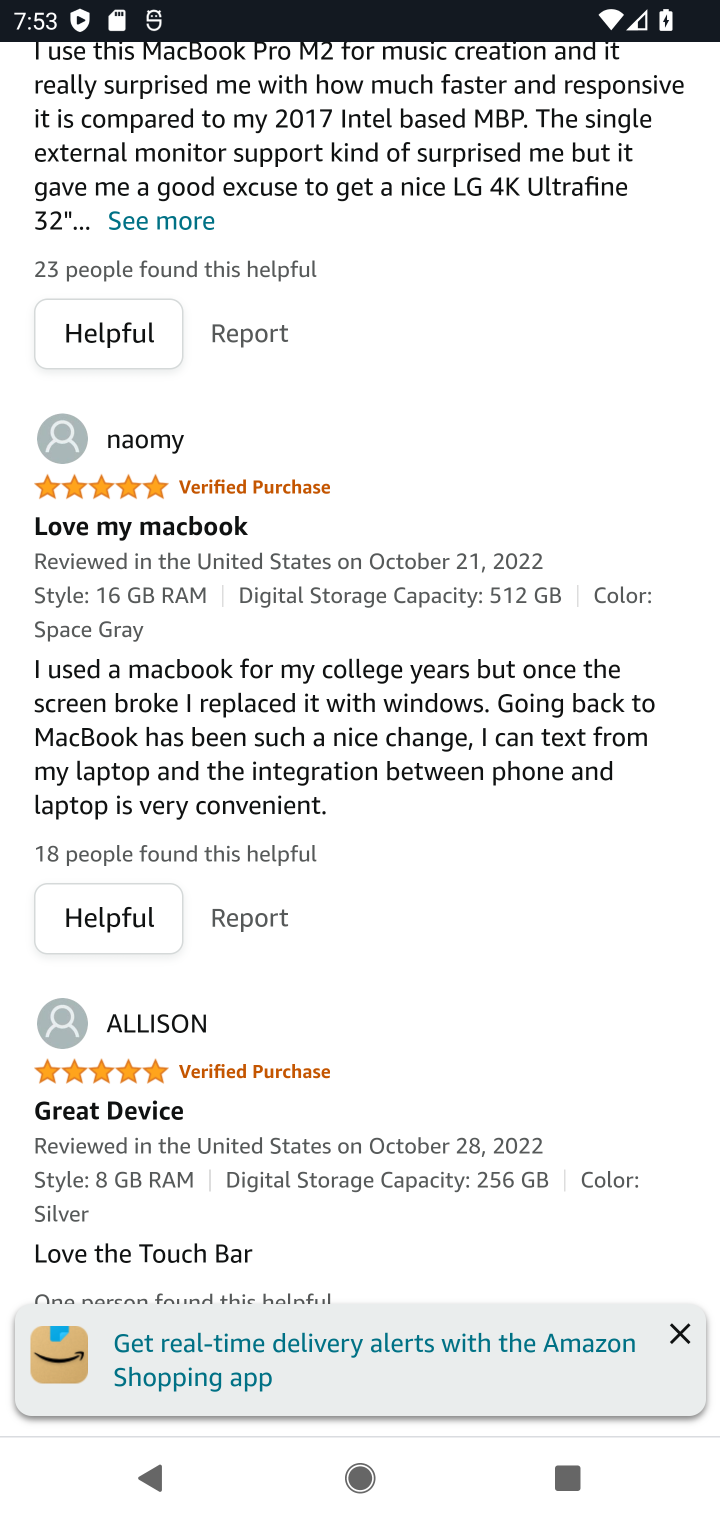
Step 27: click (687, 1334)
Your task to perform on an android device: Search for "macbook pro" on amazon, select the first entry, add it to the cart, then select checkout. Image 28: 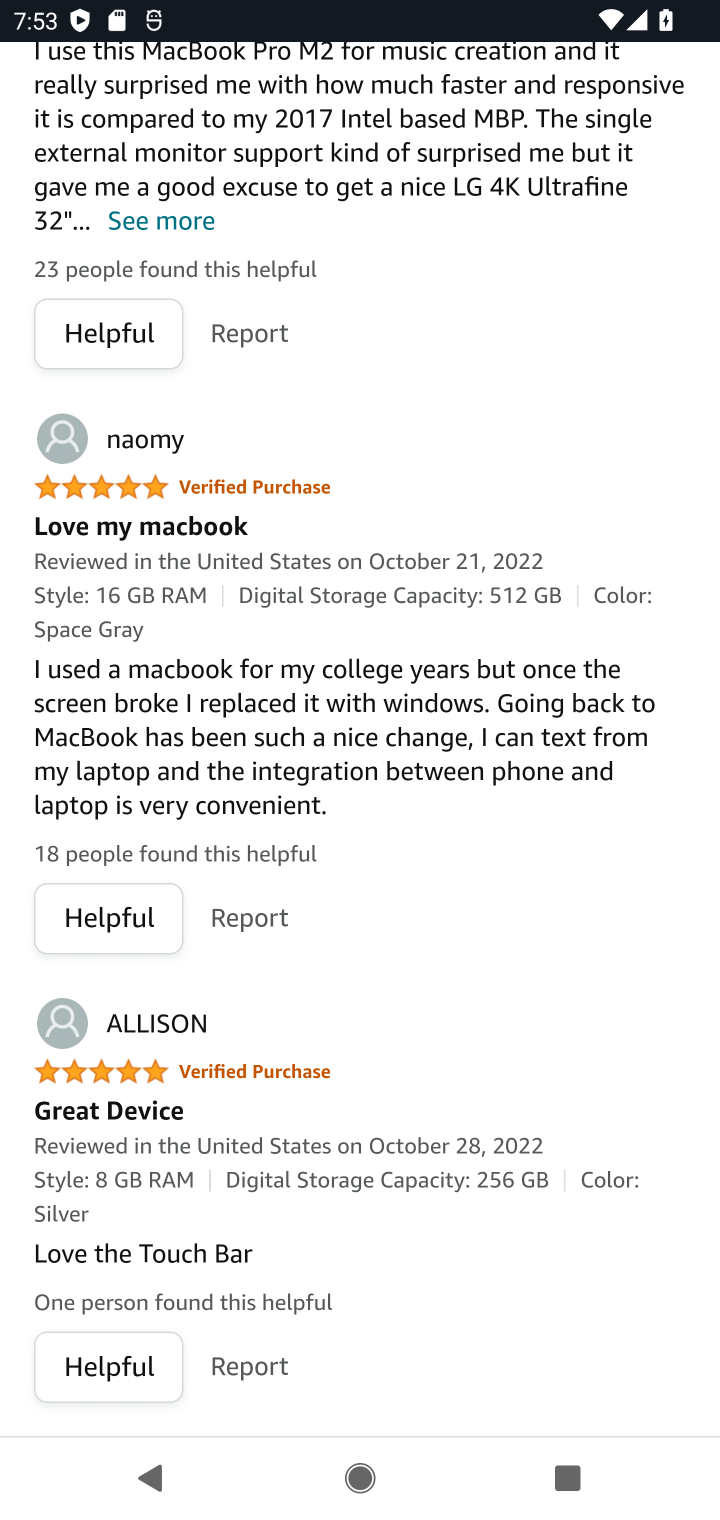
Step 28: drag from (532, 1298) to (276, 209)
Your task to perform on an android device: Search for "macbook pro" on amazon, select the first entry, add it to the cart, then select checkout. Image 29: 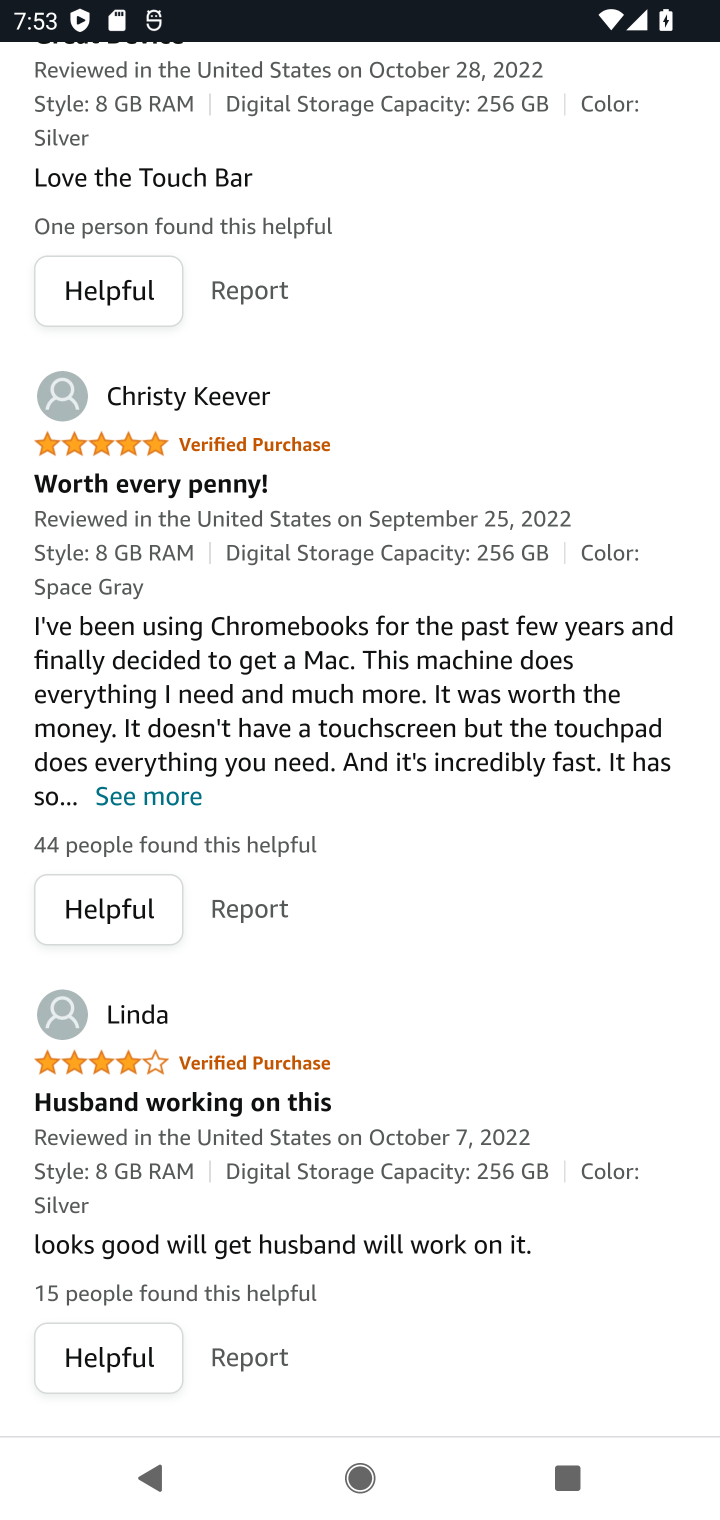
Step 29: drag from (520, 1357) to (30, 38)
Your task to perform on an android device: Search for "macbook pro" on amazon, select the first entry, add it to the cart, then select checkout. Image 30: 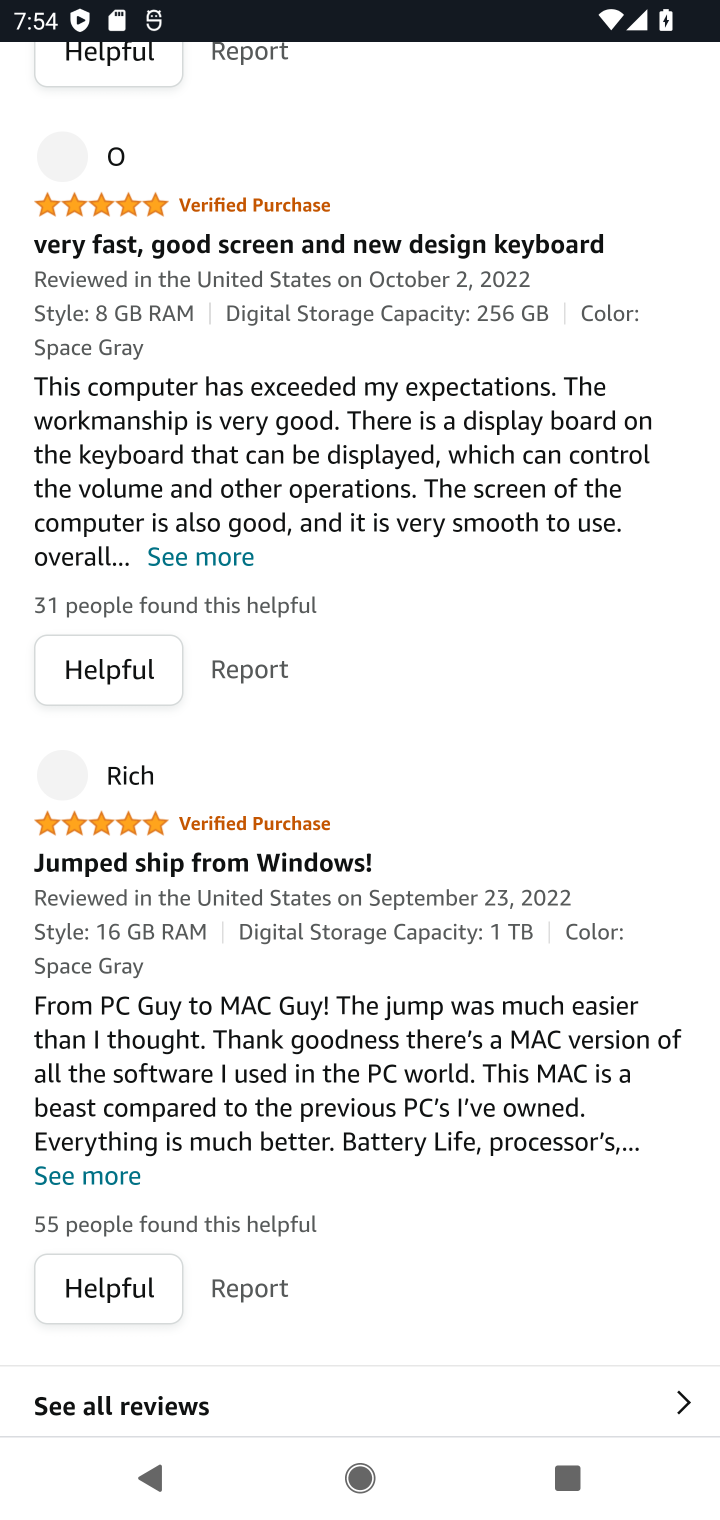
Step 30: drag from (548, 1340) to (402, 50)
Your task to perform on an android device: Search for "macbook pro" on amazon, select the first entry, add it to the cart, then select checkout. Image 31: 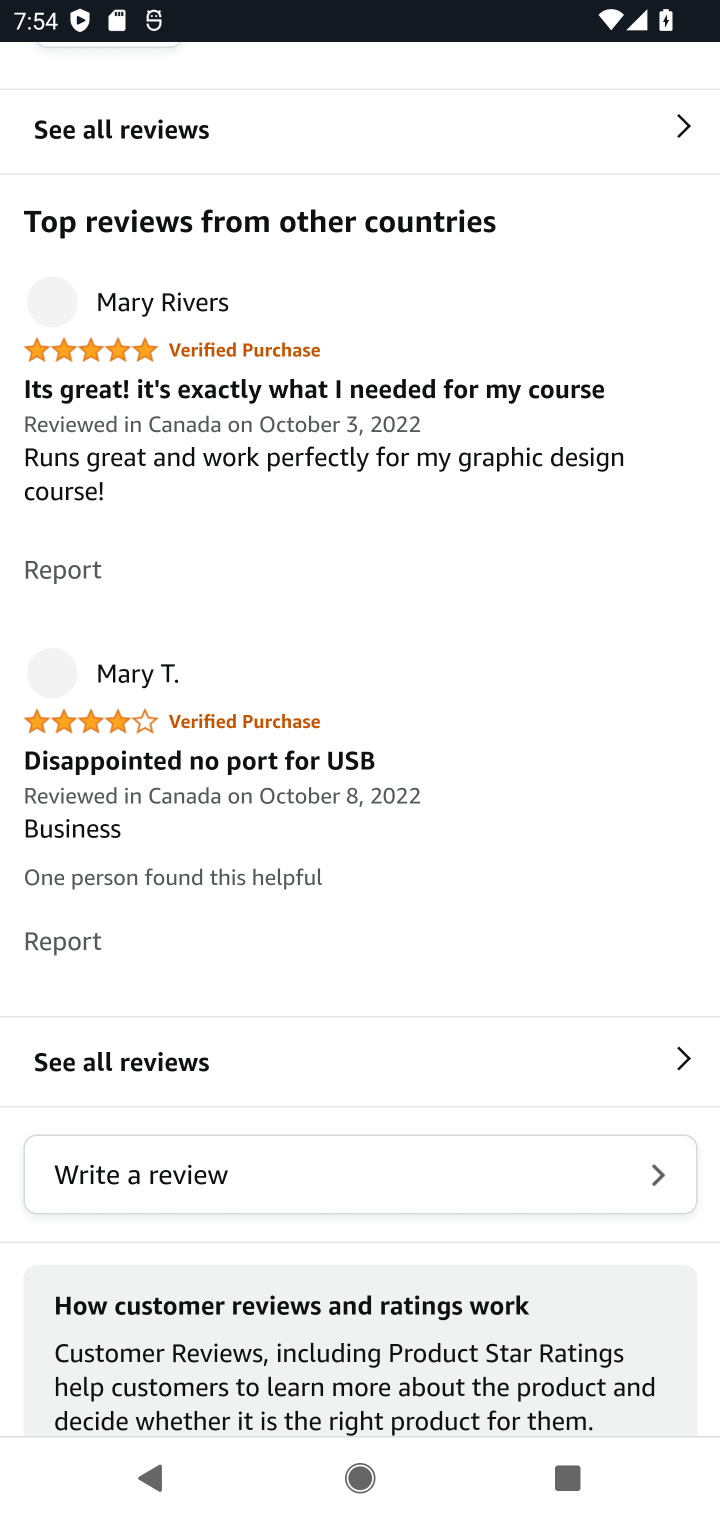
Step 31: drag from (560, 1335) to (348, 93)
Your task to perform on an android device: Search for "macbook pro" on amazon, select the first entry, add it to the cart, then select checkout. Image 32: 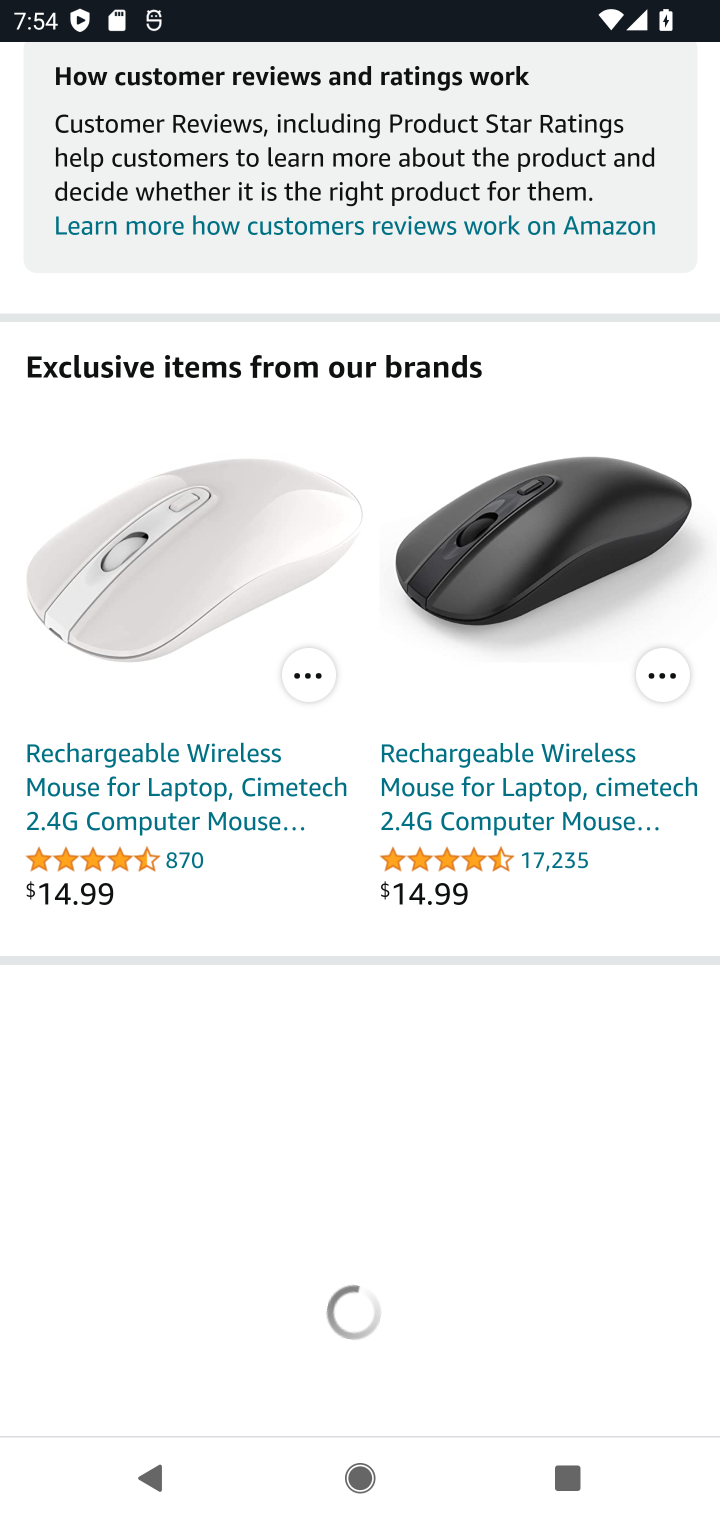
Step 32: drag from (435, 1391) to (426, 8)
Your task to perform on an android device: Search for "macbook pro" on amazon, select the first entry, add it to the cart, then select checkout. Image 33: 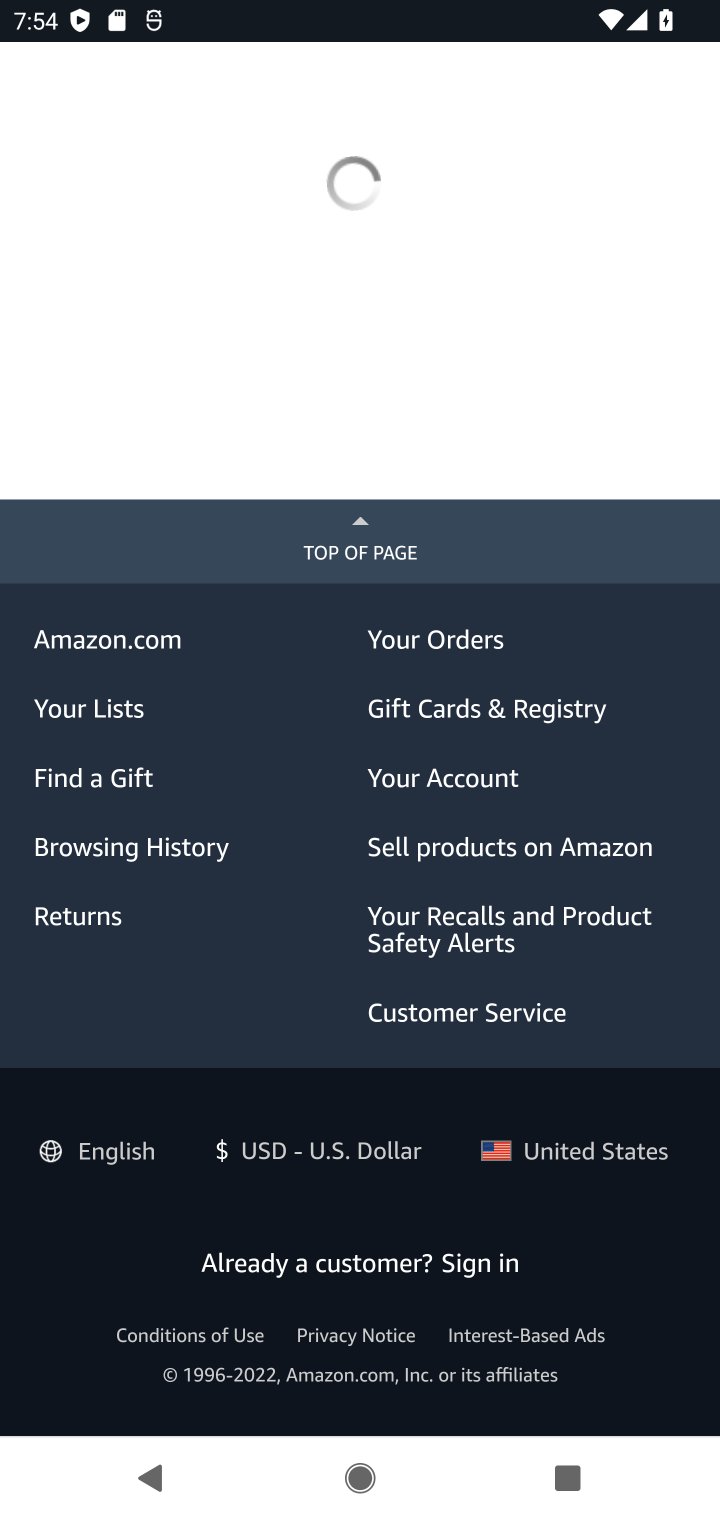
Step 33: click (349, 557)
Your task to perform on an android device: Search for "macbook pro" on amazon, select the first entry, add it to the cart, then select checkout. Image 34: 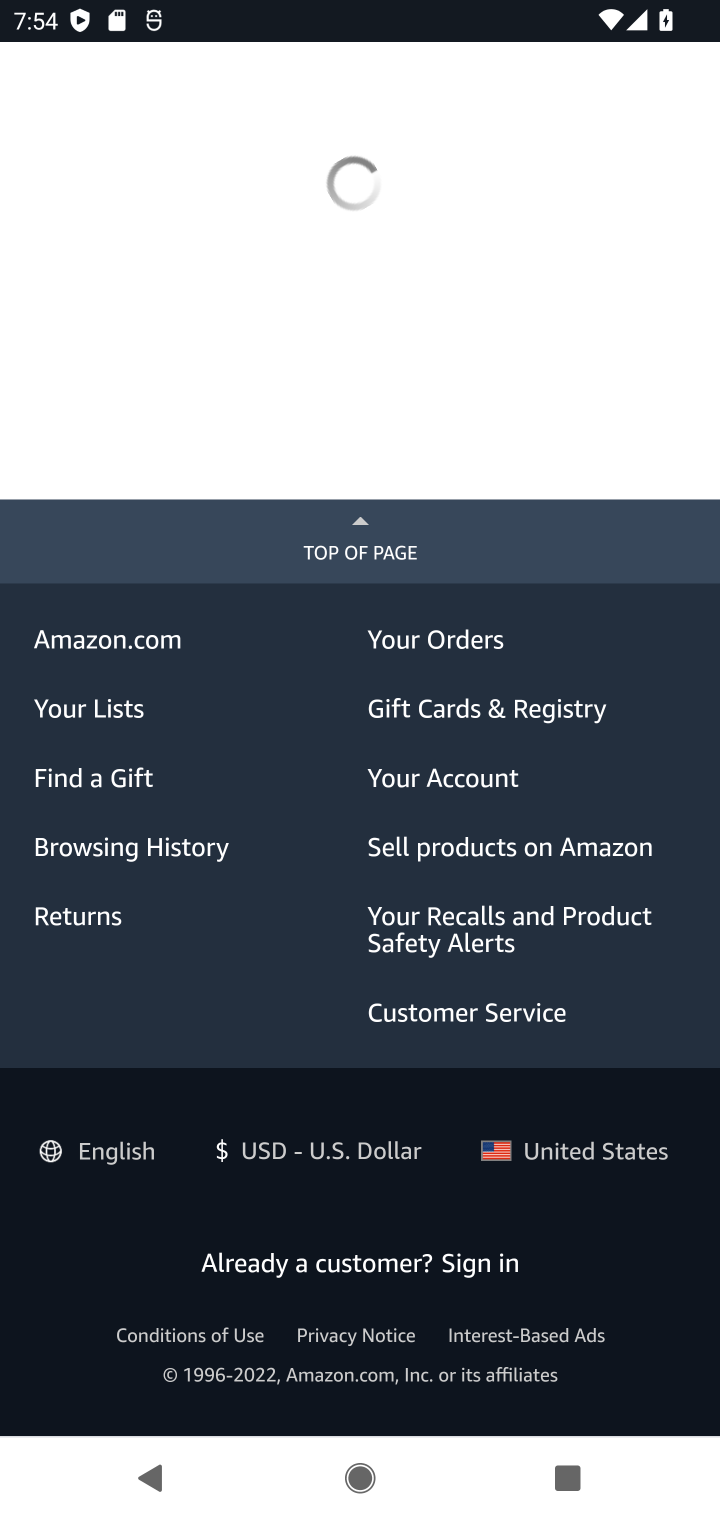
Step 34: task complete